Your task to perform on an android device: Search for vegetarian restaurants on Maps Image 0: 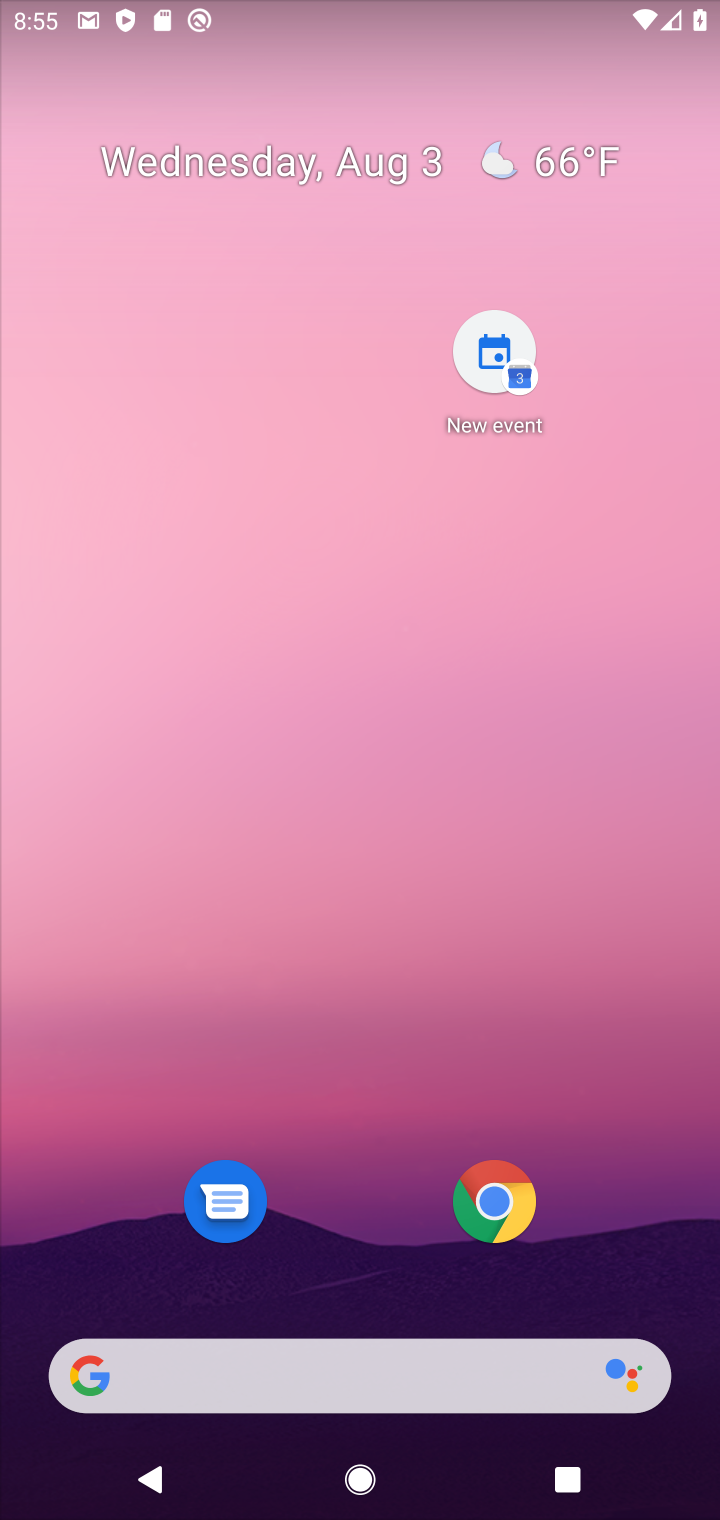
Step 0: press back button
Your task to perform on an android device: Search for vegetarian restaurants on Maps Image 1: 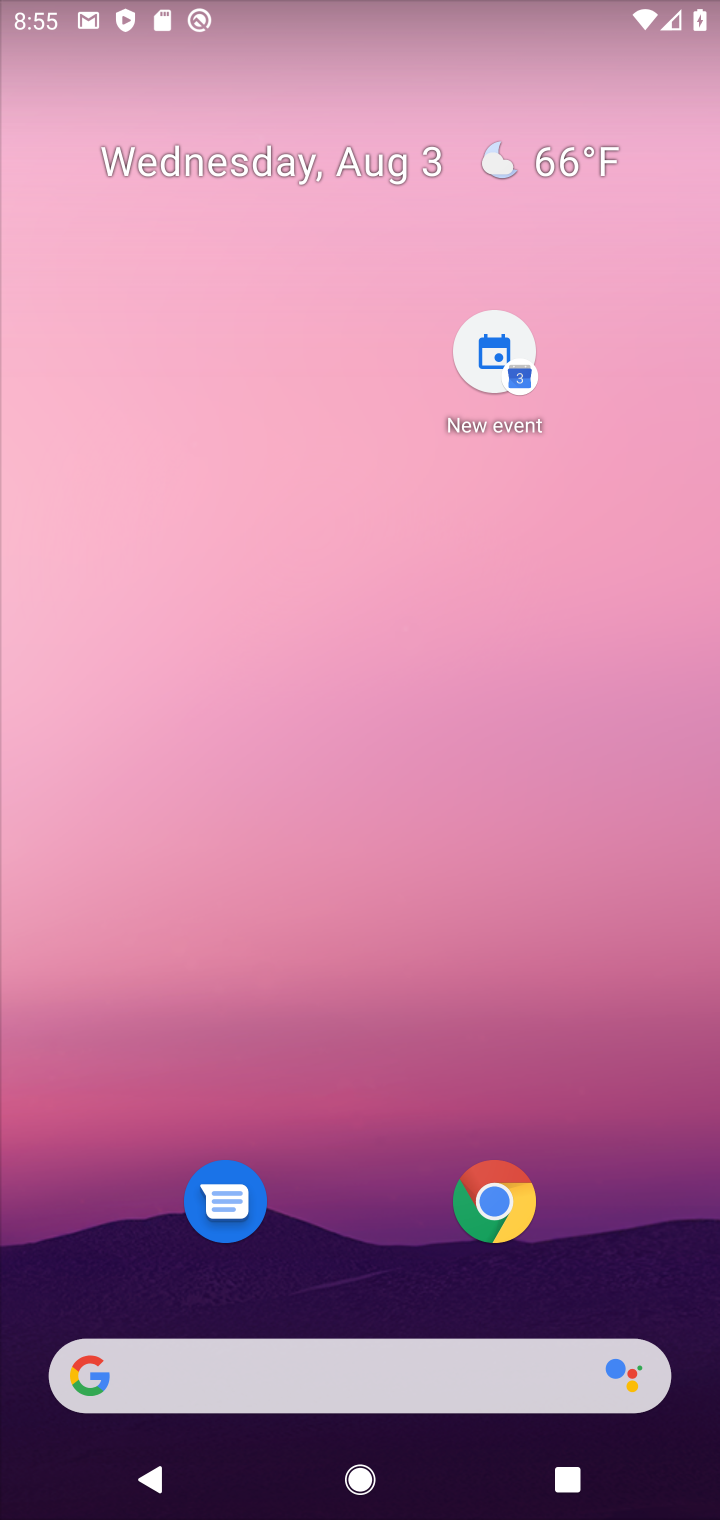
Step 1: drag from (242, 444) to (313, 165)
Your task to perform on an android device: Search for vegetarian restaurants on Maps Image 2: 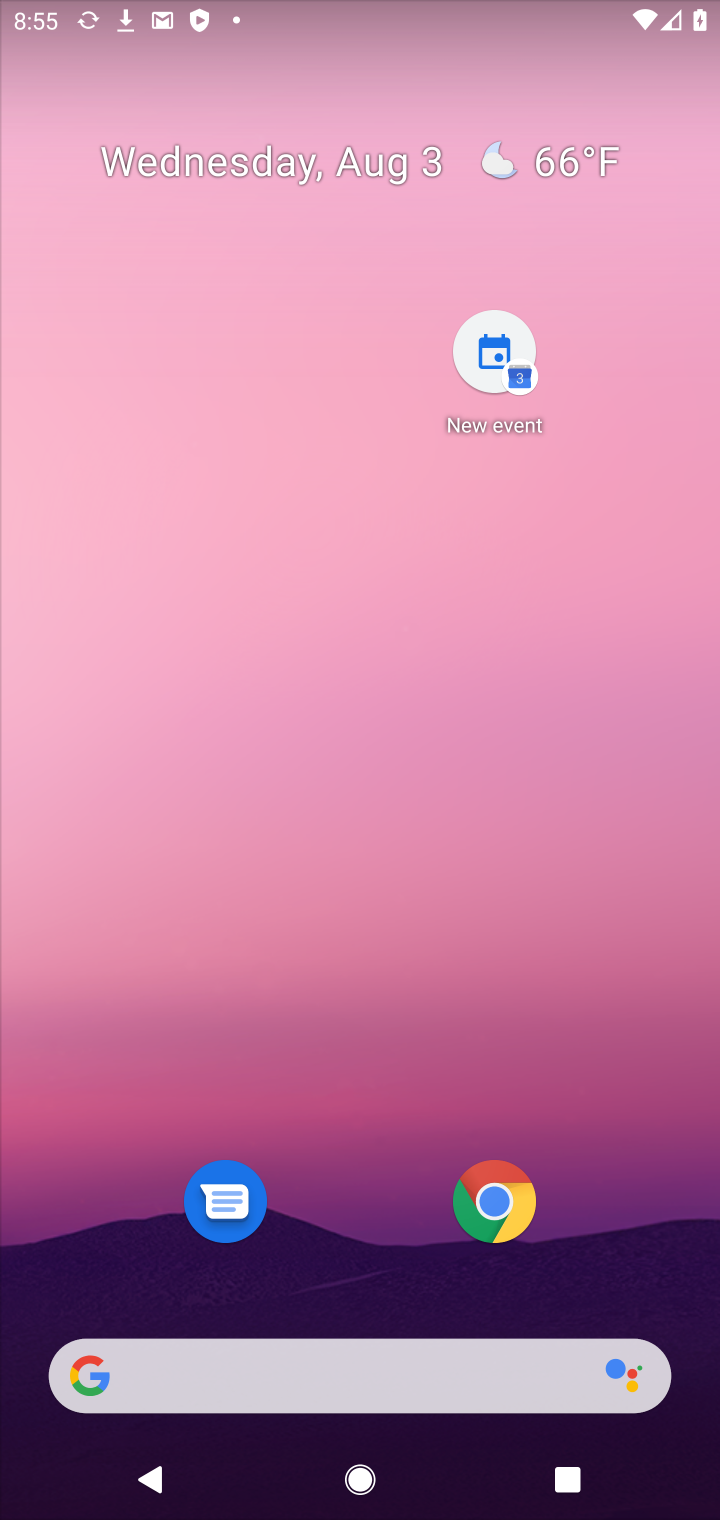
Step 2: press back button
Your task to perform on an android device: Search for vegetarian restaurants on Maps Image 3: 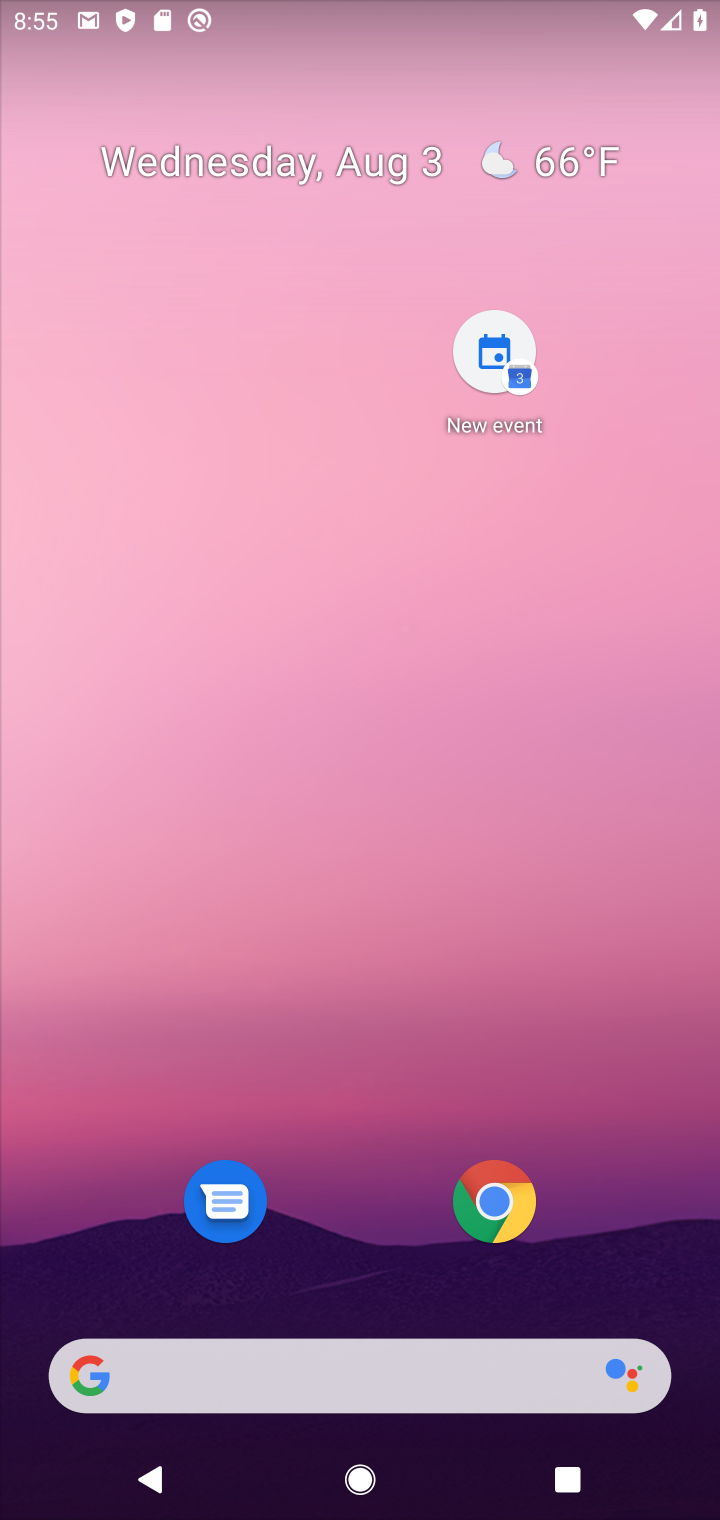
Step 3: press back button
Your task to perform on an android device: Search for vegetarian restaurants on Maps Image 4: 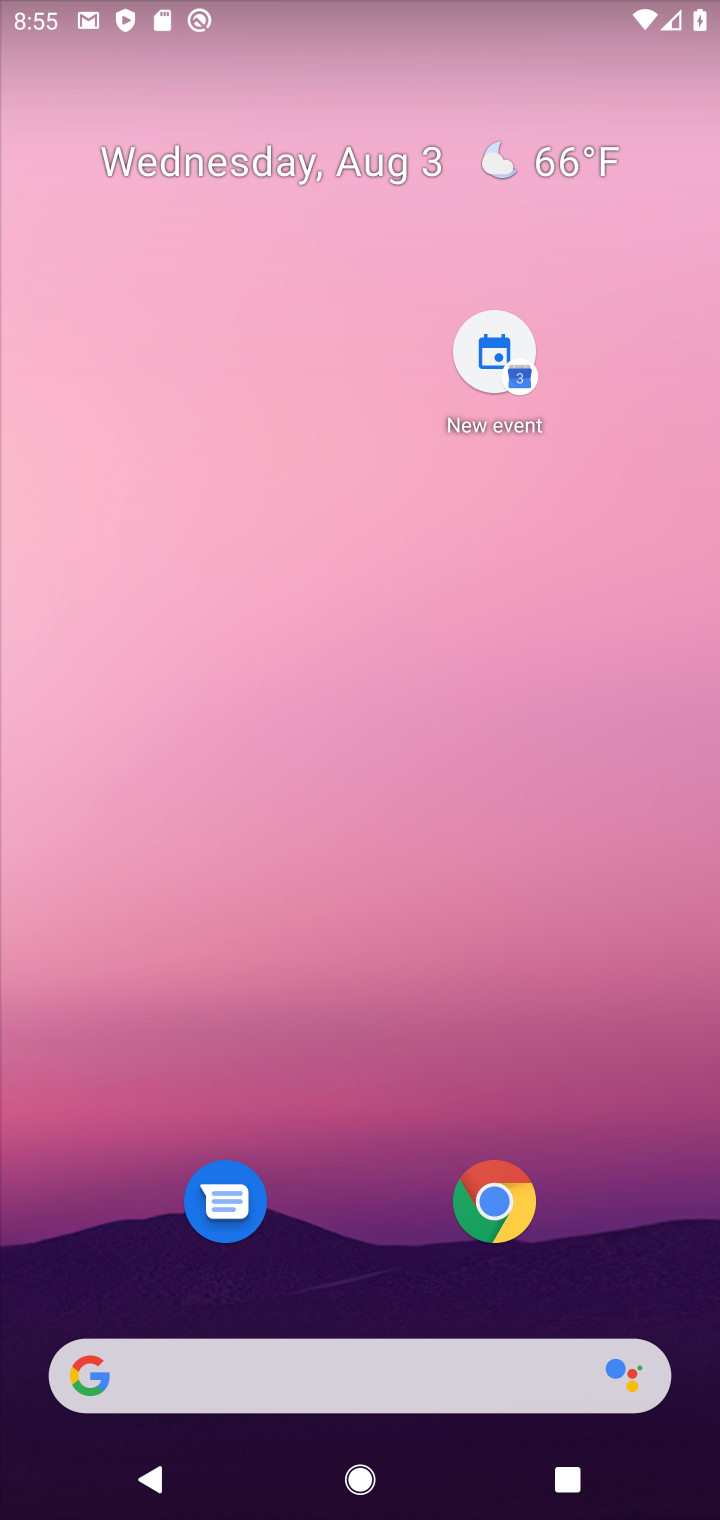
Step 4: drag from (394, 1092) to (268, 434)
Your task to perform on an android device: Search for vegetarian restaurants on Maps Image 5: 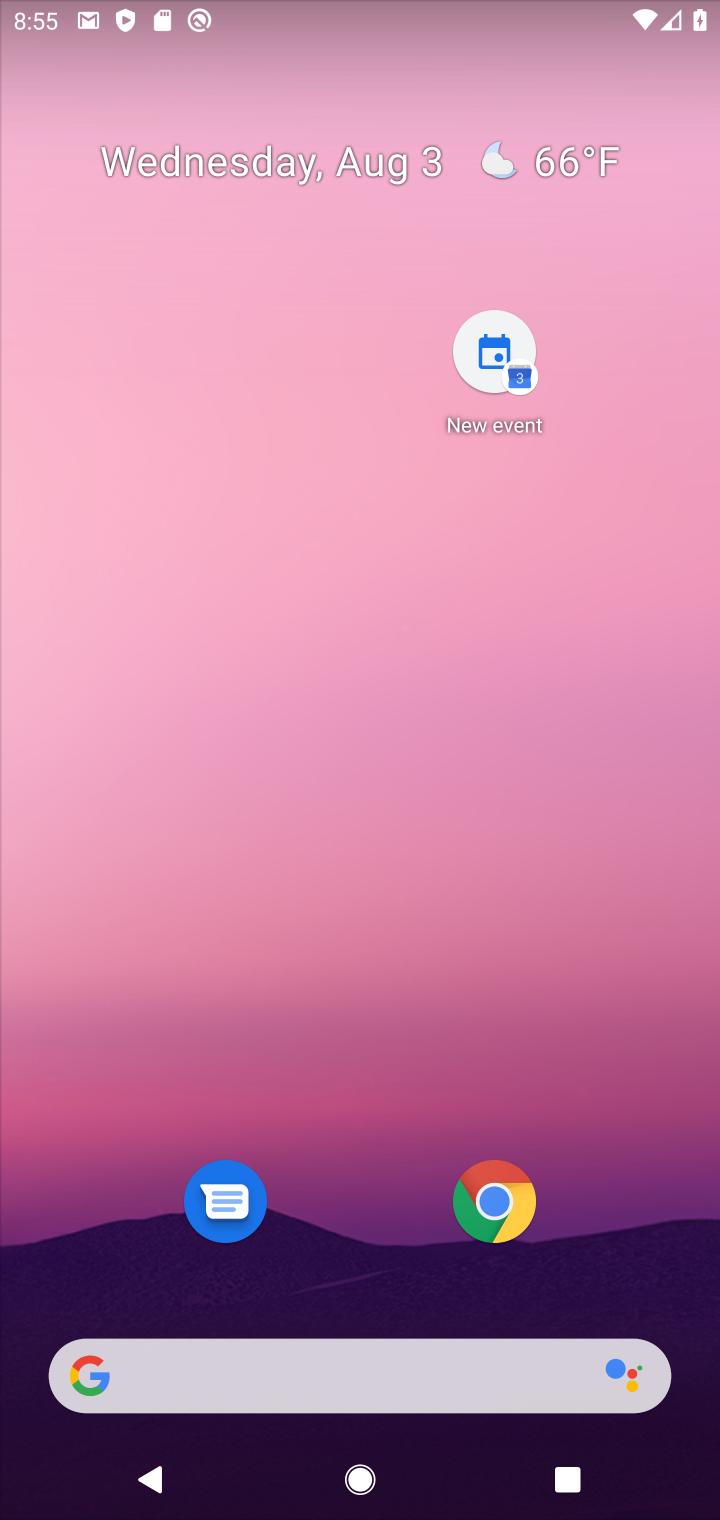
Step 5: click (480, 519)
Your task to perform on an android device: Search for vegetarian restaurants on Maps Image 6: 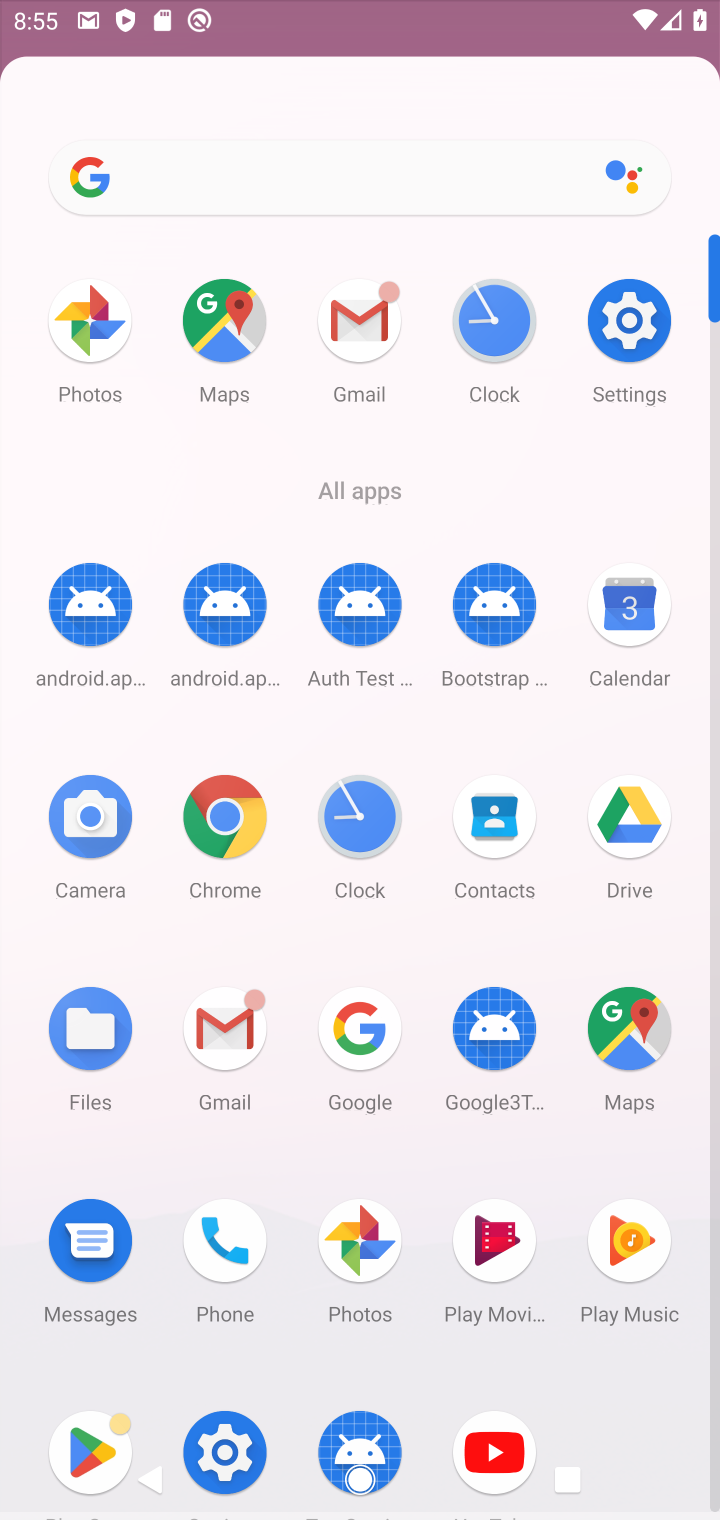
Step 6: drag from (453, 1141) to (487, 808)
Your task to perform on an android device: Search for vegetarian restaurants on Maps Image 7: 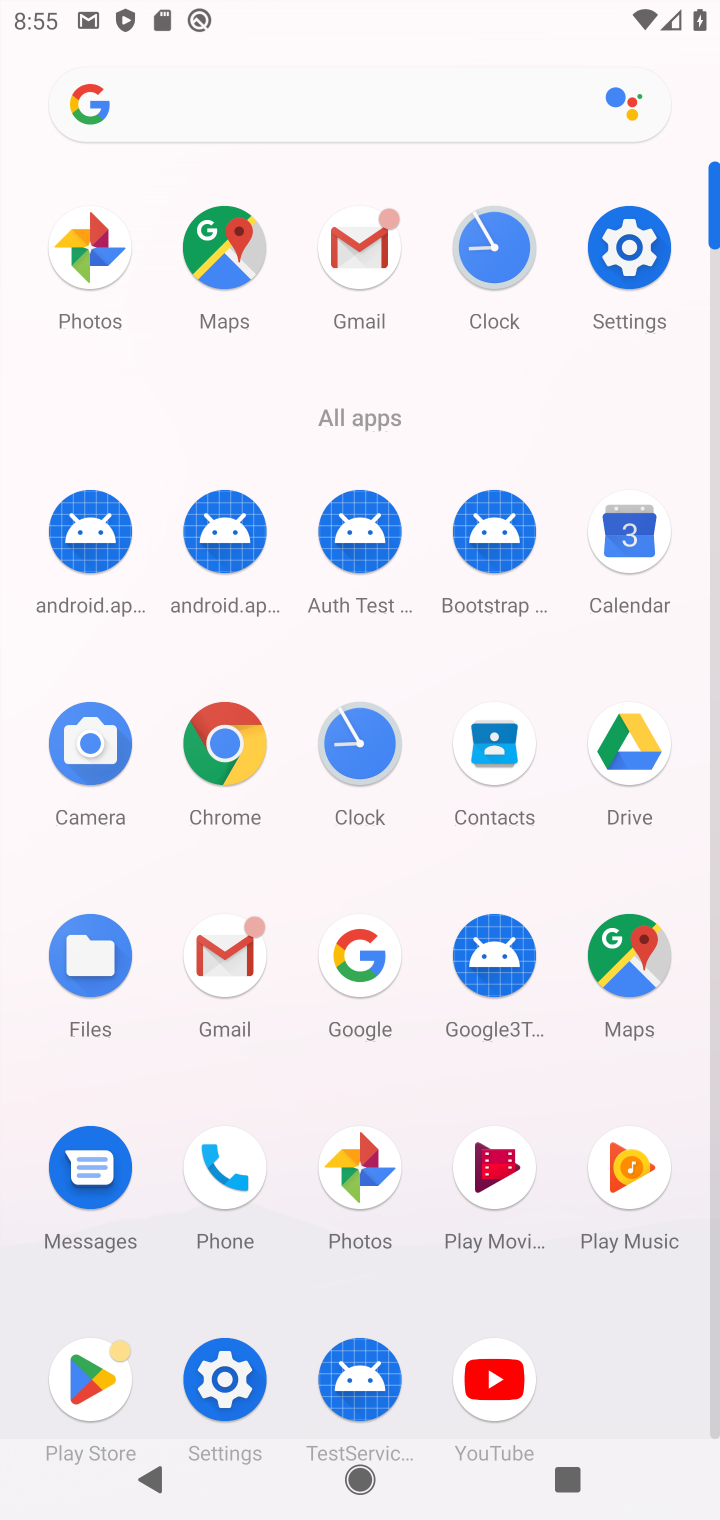
Step 7: click (629, 948)
Your task to perform on an android device: Search for vegetarian restaurants on Maps Image 8: 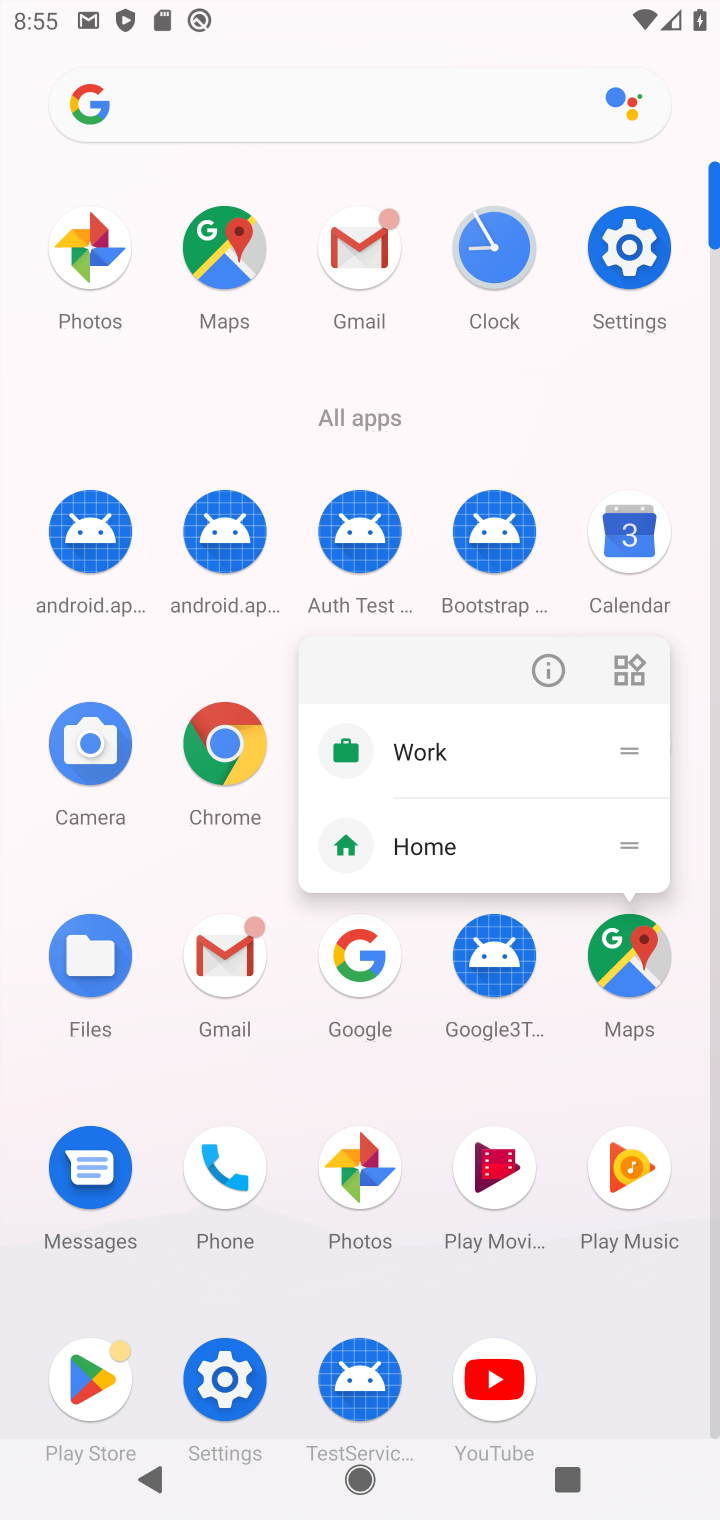
Step 8: click (630, 946)
Your task to perform on an android device: Search for vegetarian restaurants on Maps Image 9: 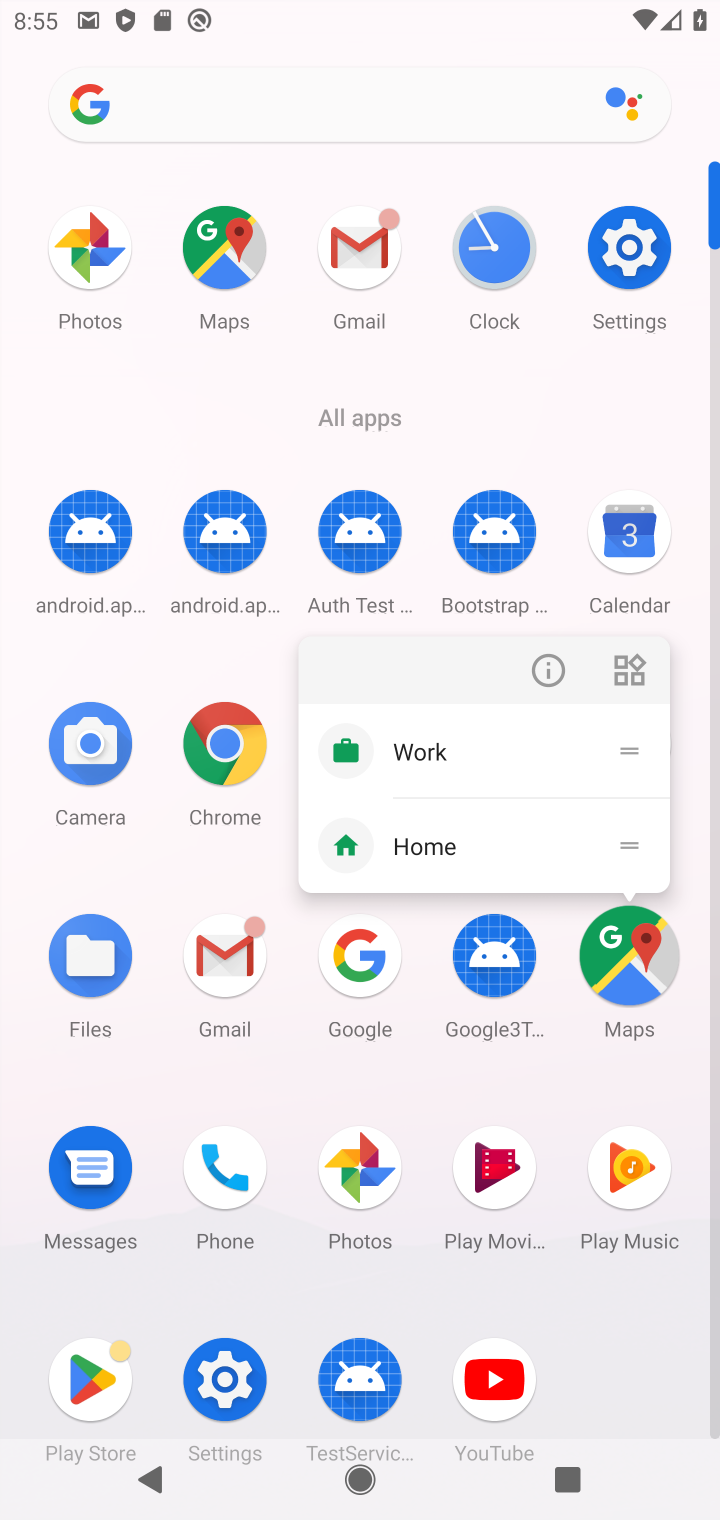
Step 9: click (630, 946)
Your task to perform on an android device: Search for vegetarian restaurants on Maps Image 10: 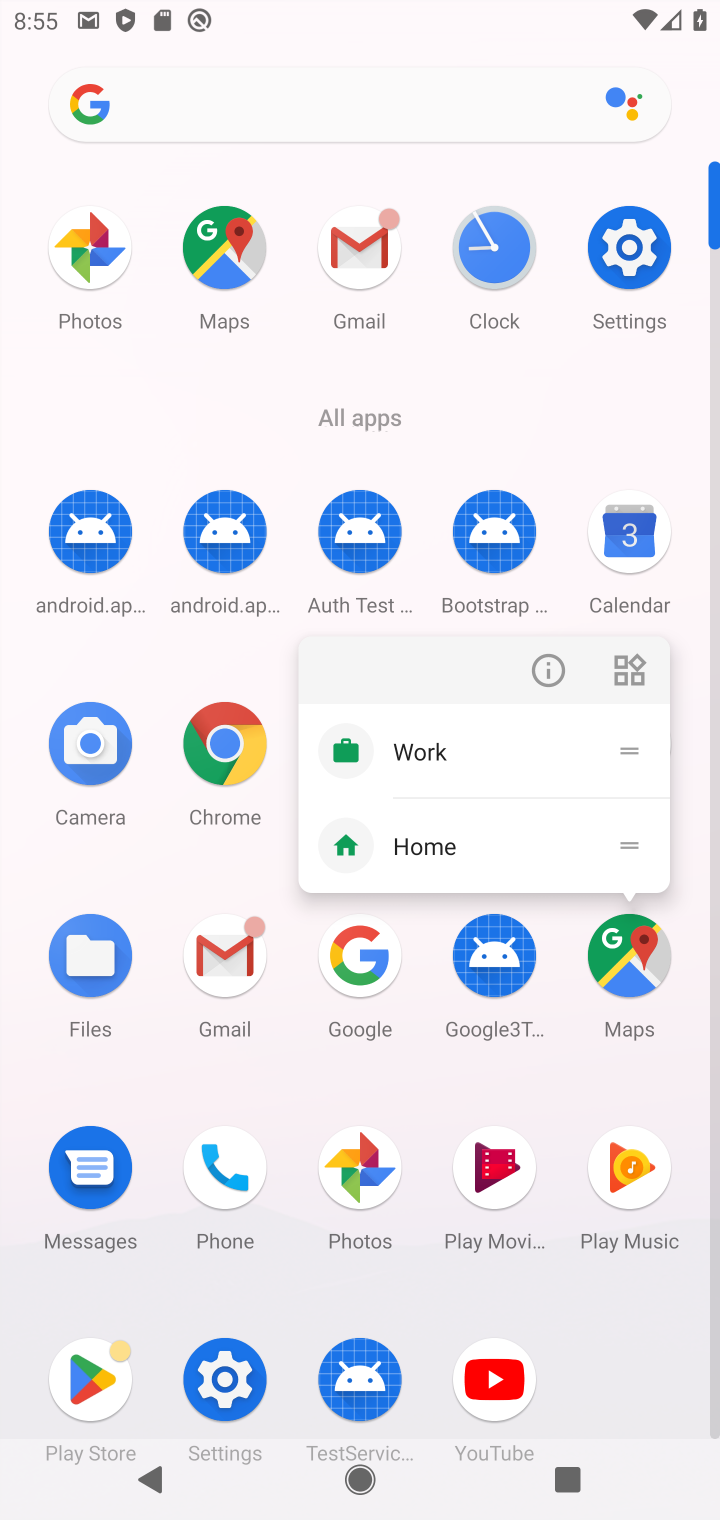
Step 10: click (633, 946)
Your task to perform on an android device: Search for vegetarian restaurants on Maps Image 11: 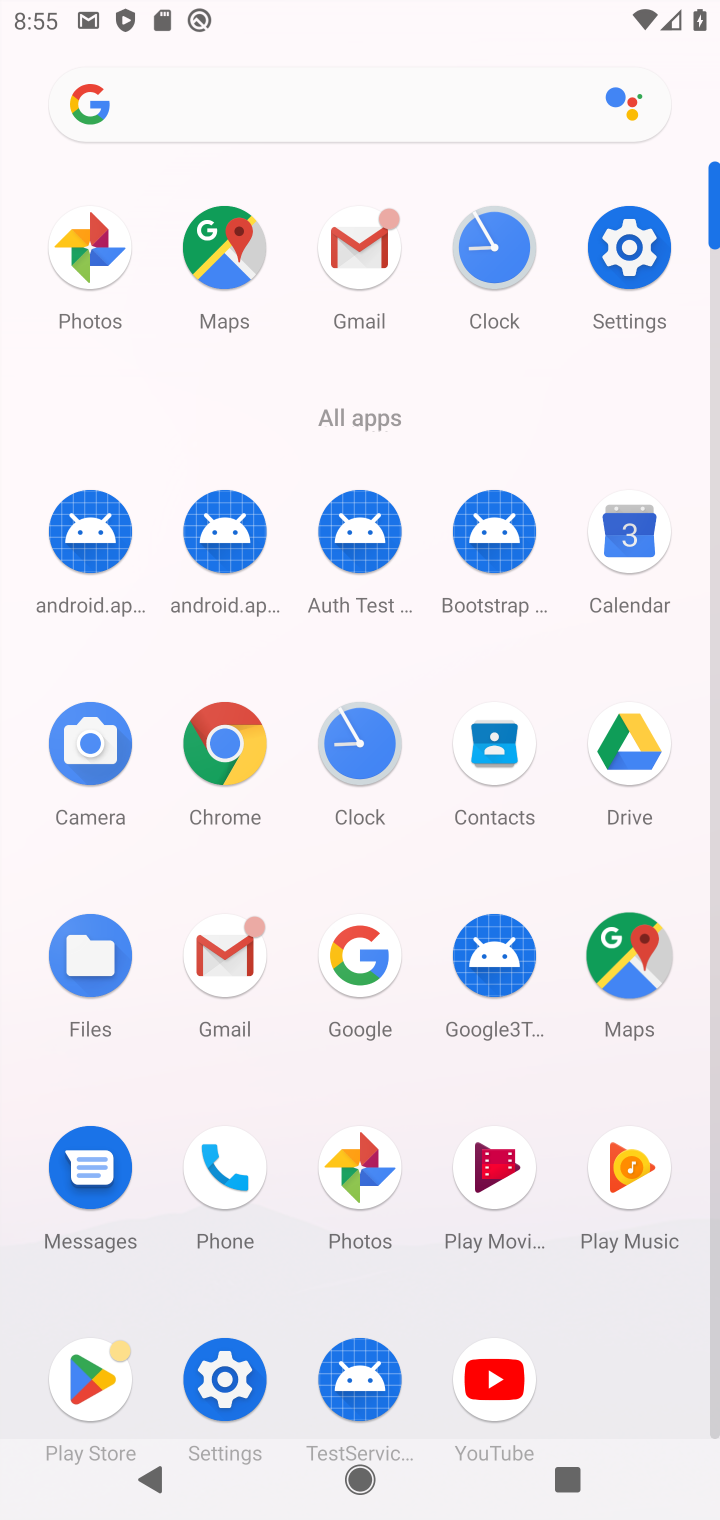
Step 11: click (636, 950)
Your task to perform on an android device: Search for vegetarian restaurants on Maps Image 12: 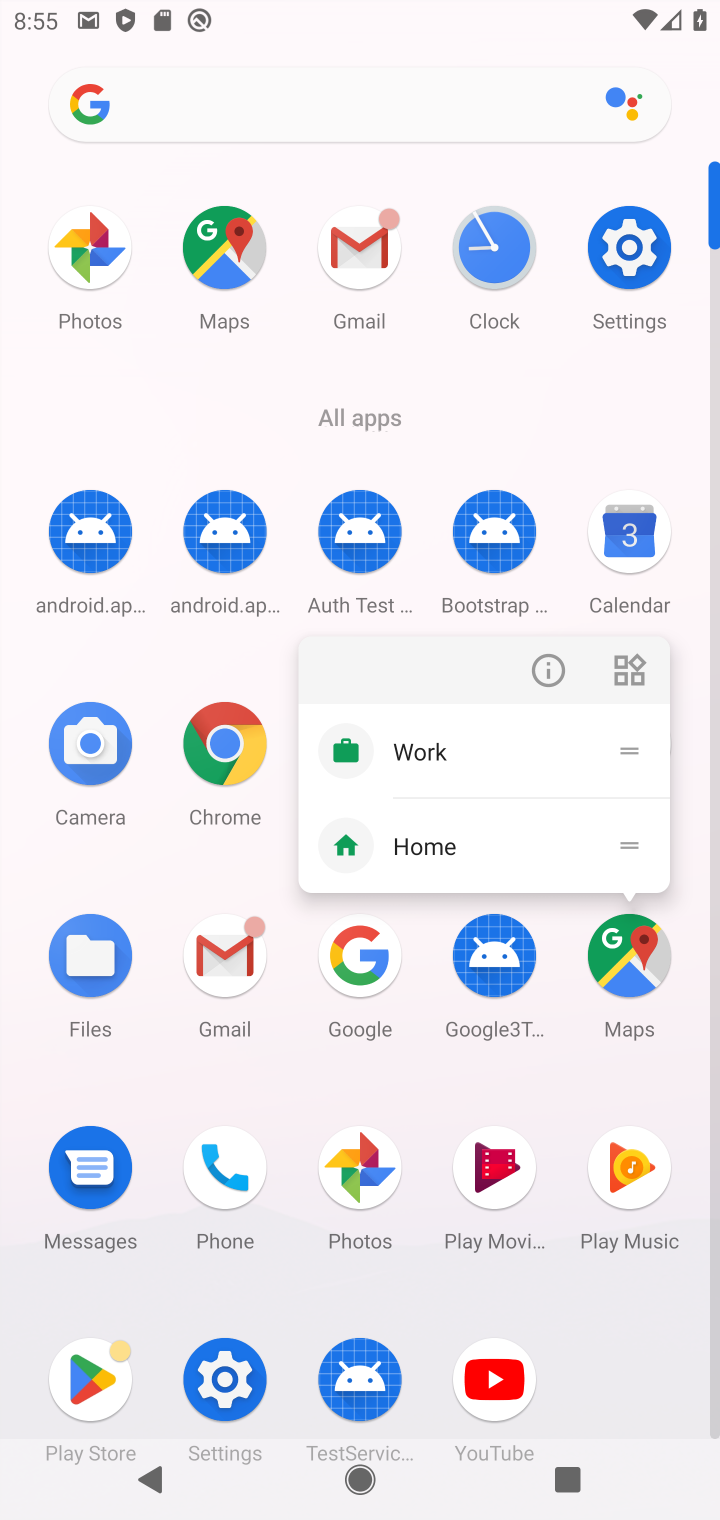
Step 12: click (638, 918)
Your task to perform on an android device: Search for vegetarian restaurants on Maps Image 13: 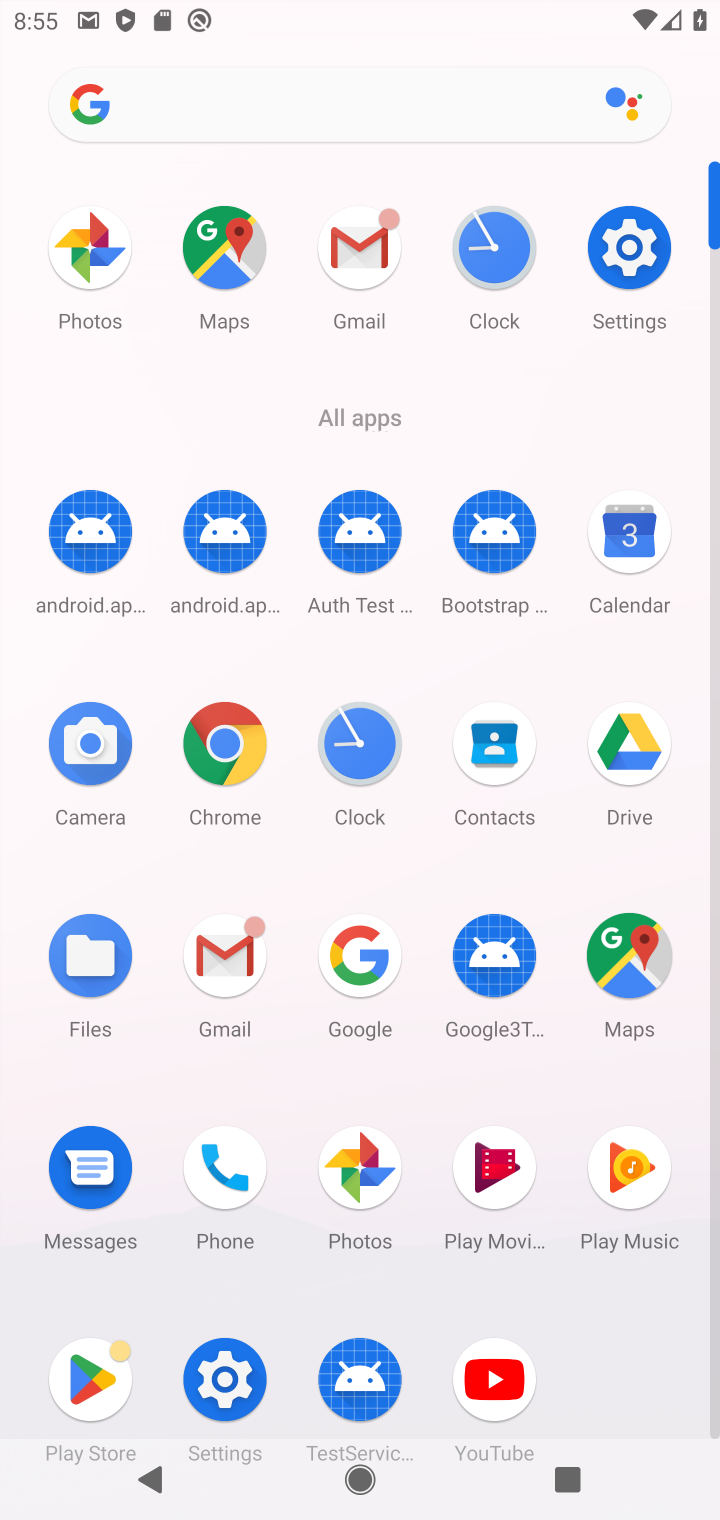
Step 13: click (636, 909)
Your task to perform on an android device: Search for vegetarian restaurants on Maps Image 14: 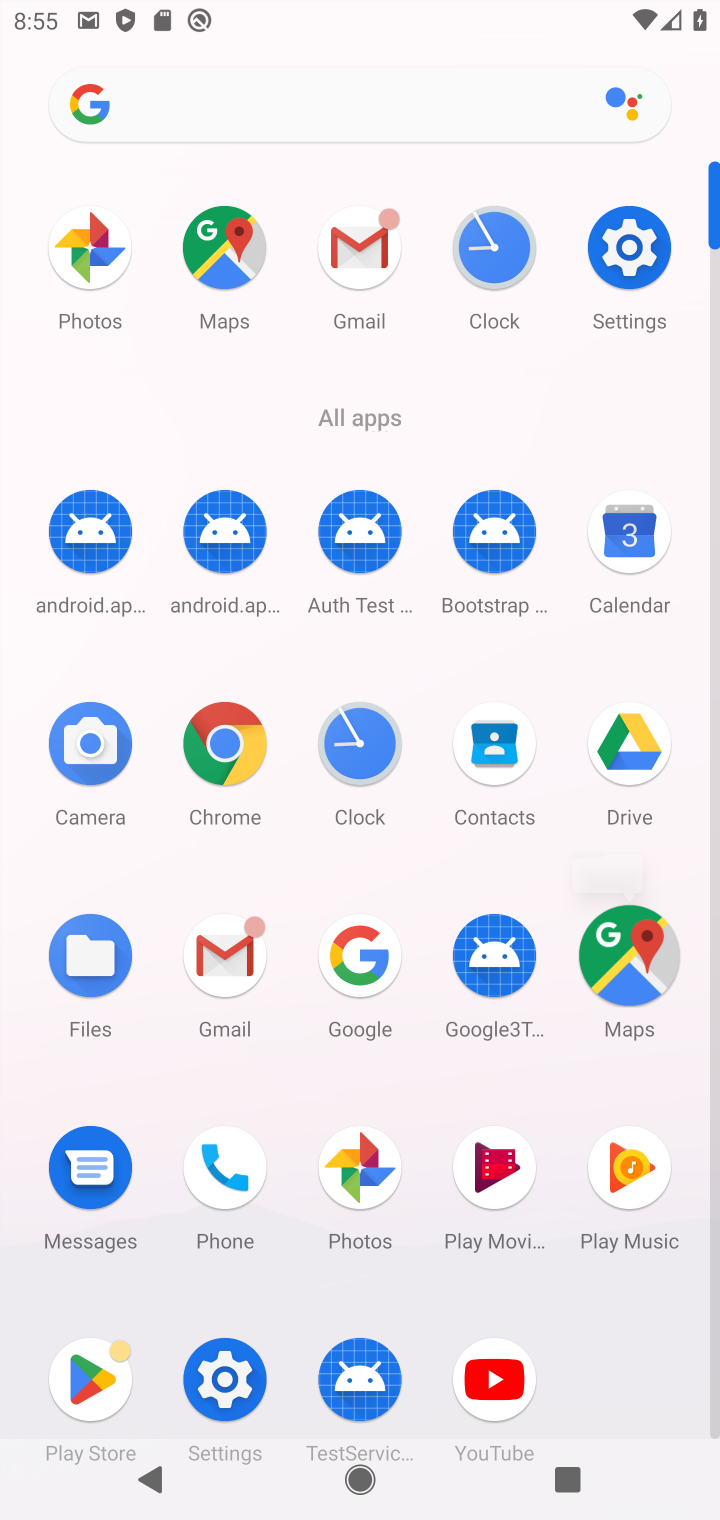
Step 14: click (638, 938)
Your task to perform on an android device: Search for vegetarian restaurants on Maps Image 15: 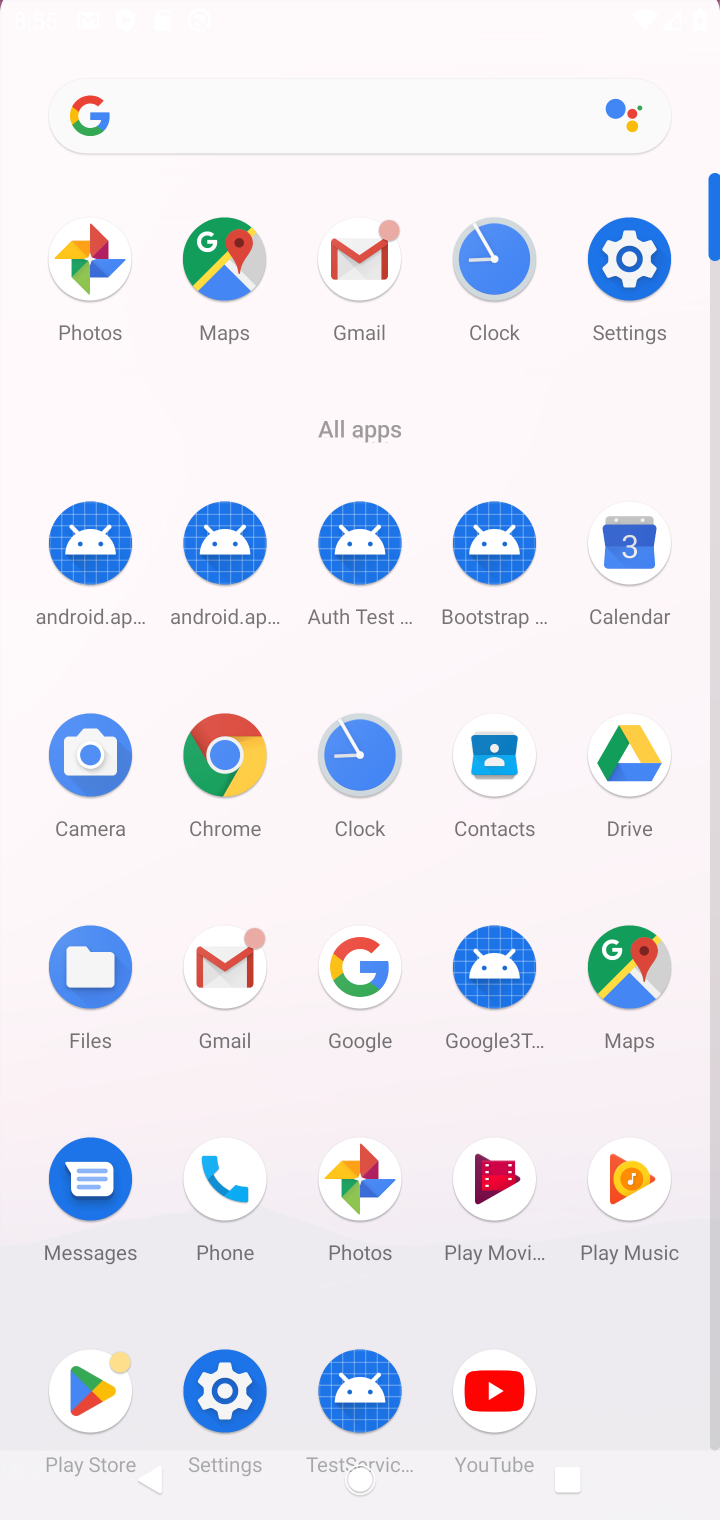
Step 15: click (624, 970)
Your task to perform on an android device: Search for vegetarian restaurants on Maps Image 16: 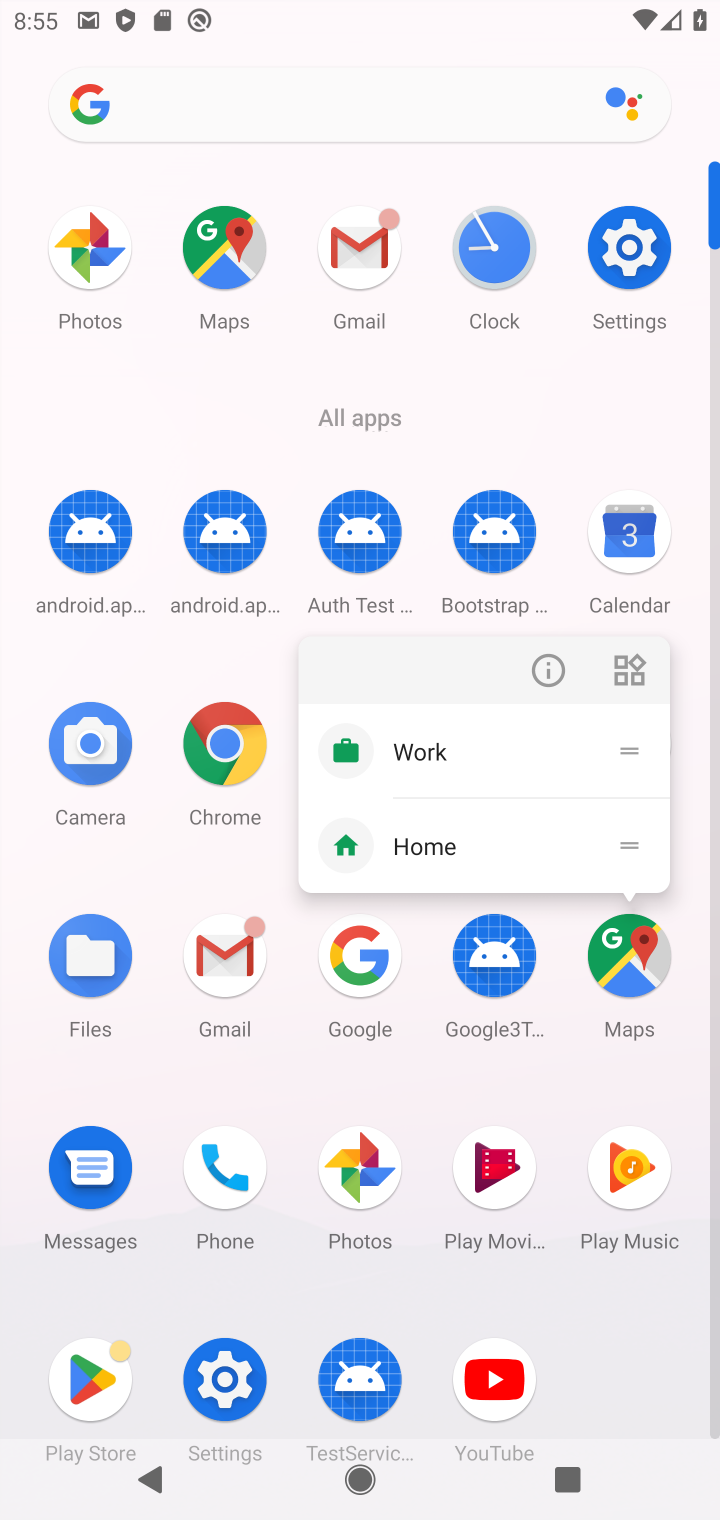
Step 16: click (624, 959)
Your task to perform on an android device: Search for vegetarian restaurants on Maps Image 17: 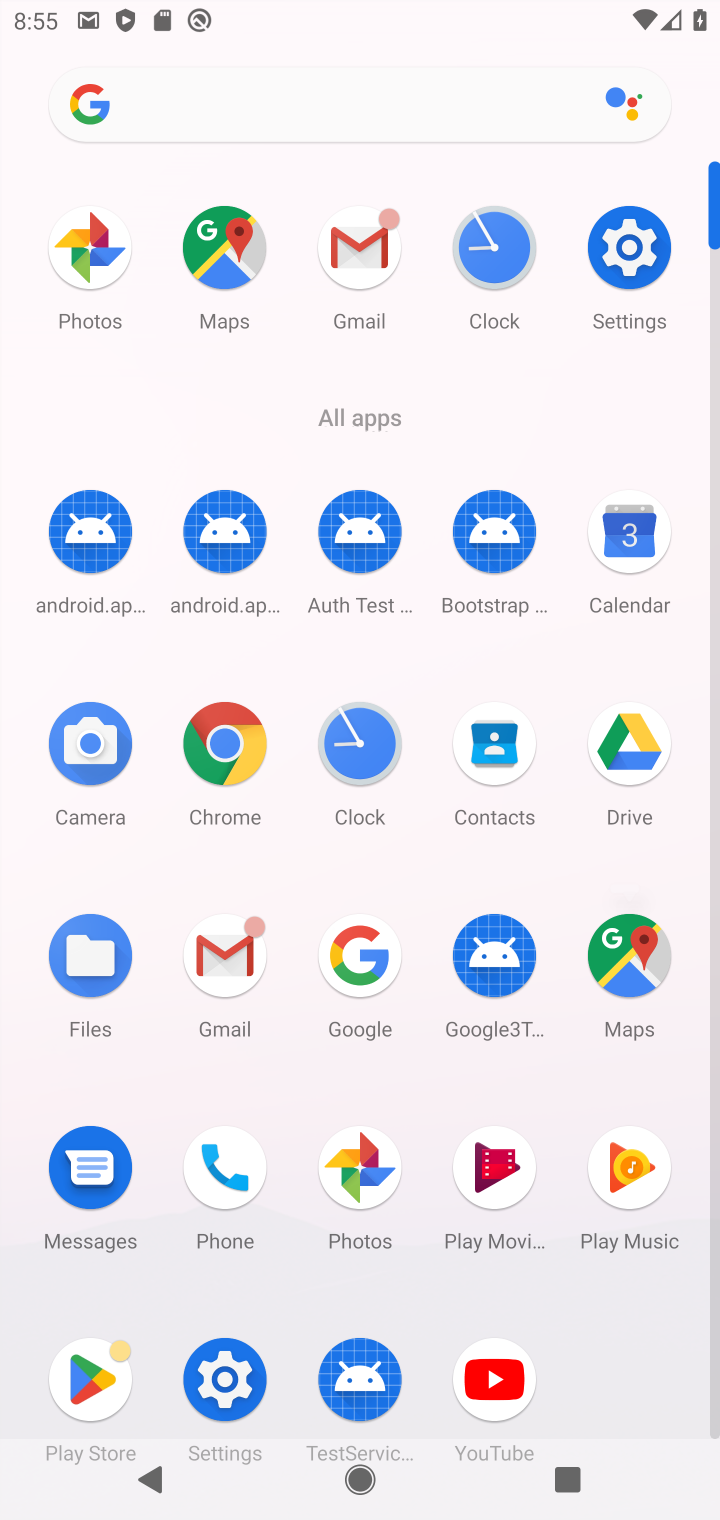
Step 17: click (624, 959)
Your task to perform on an android device: Search for vegetarian restaurants on Maps Image 18: 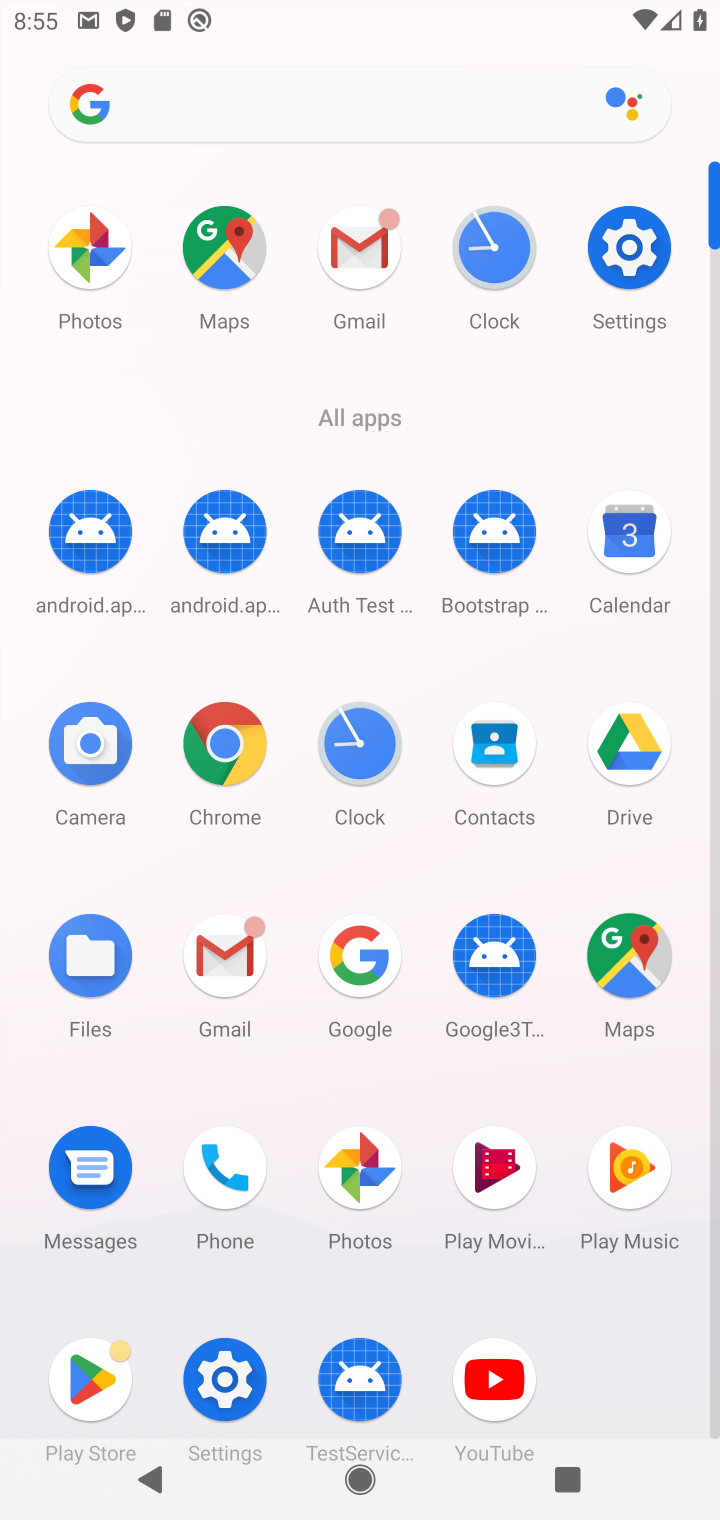
Step 18: click (439, 766)
Your task to perform on an android device: Search for vegetarian restaurants on Maps Image 19: 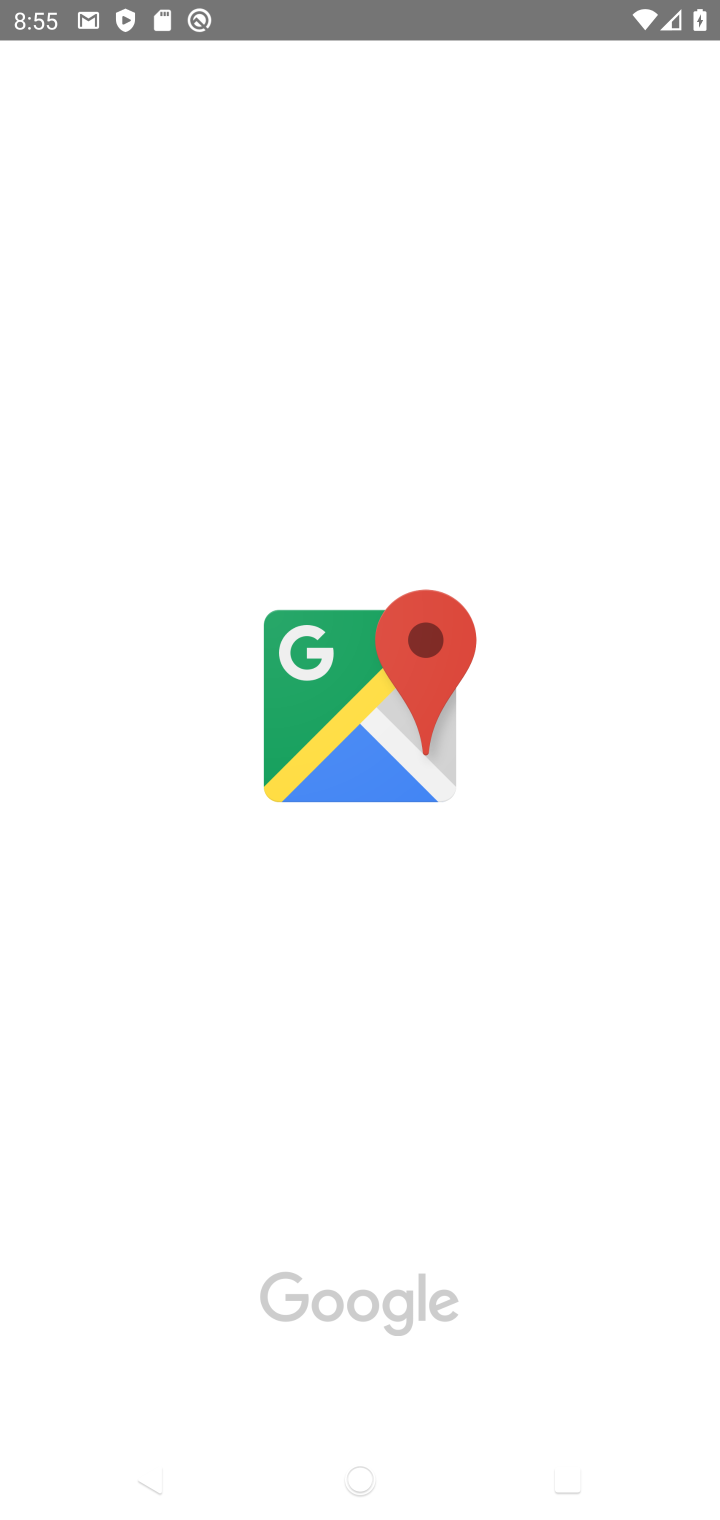
Step 19: click (446, 750)
Your task to perform on an android device: Search for vegetarian restaurants on Maps Image 20: 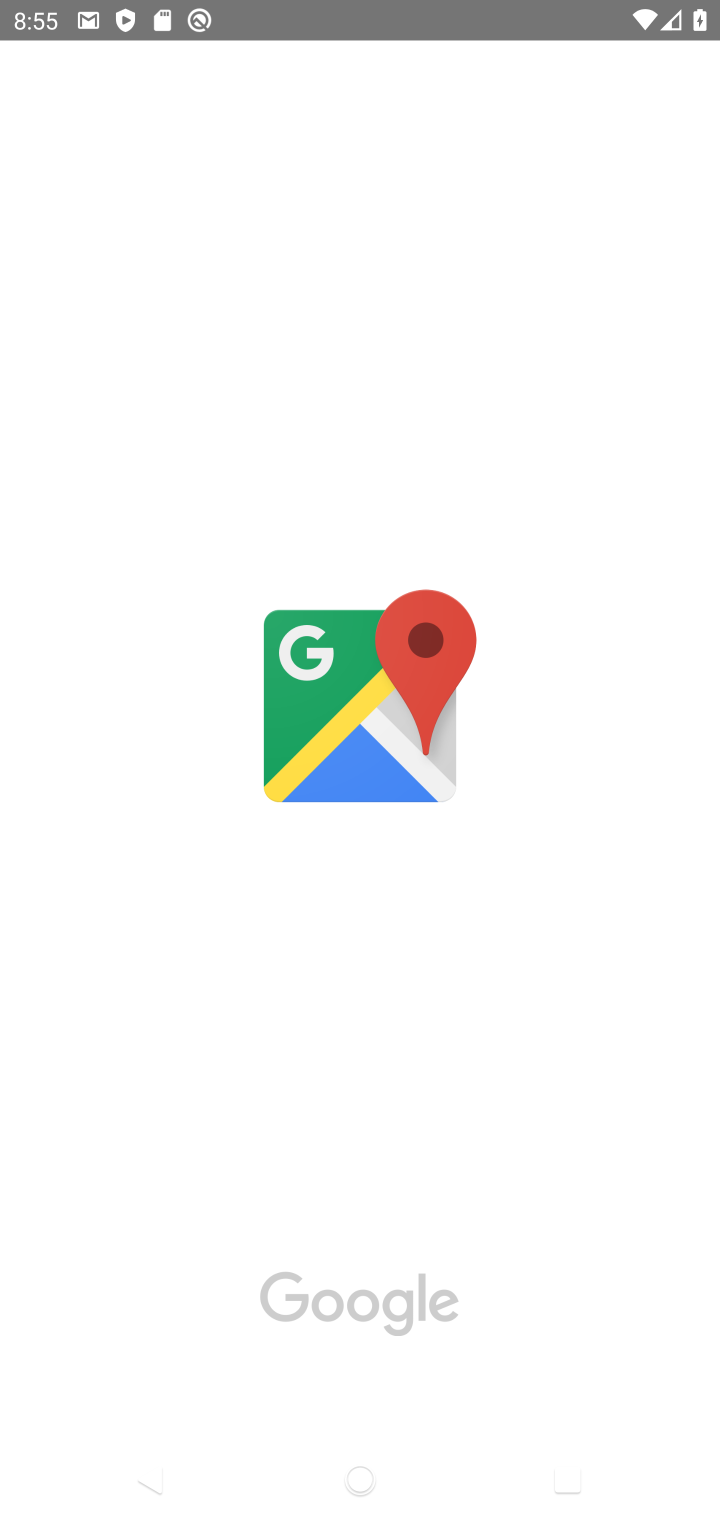
Step 20: click (412, 713)
Your task to perform on an android device: Search for vegetarian restaurants on Maps Image 21: 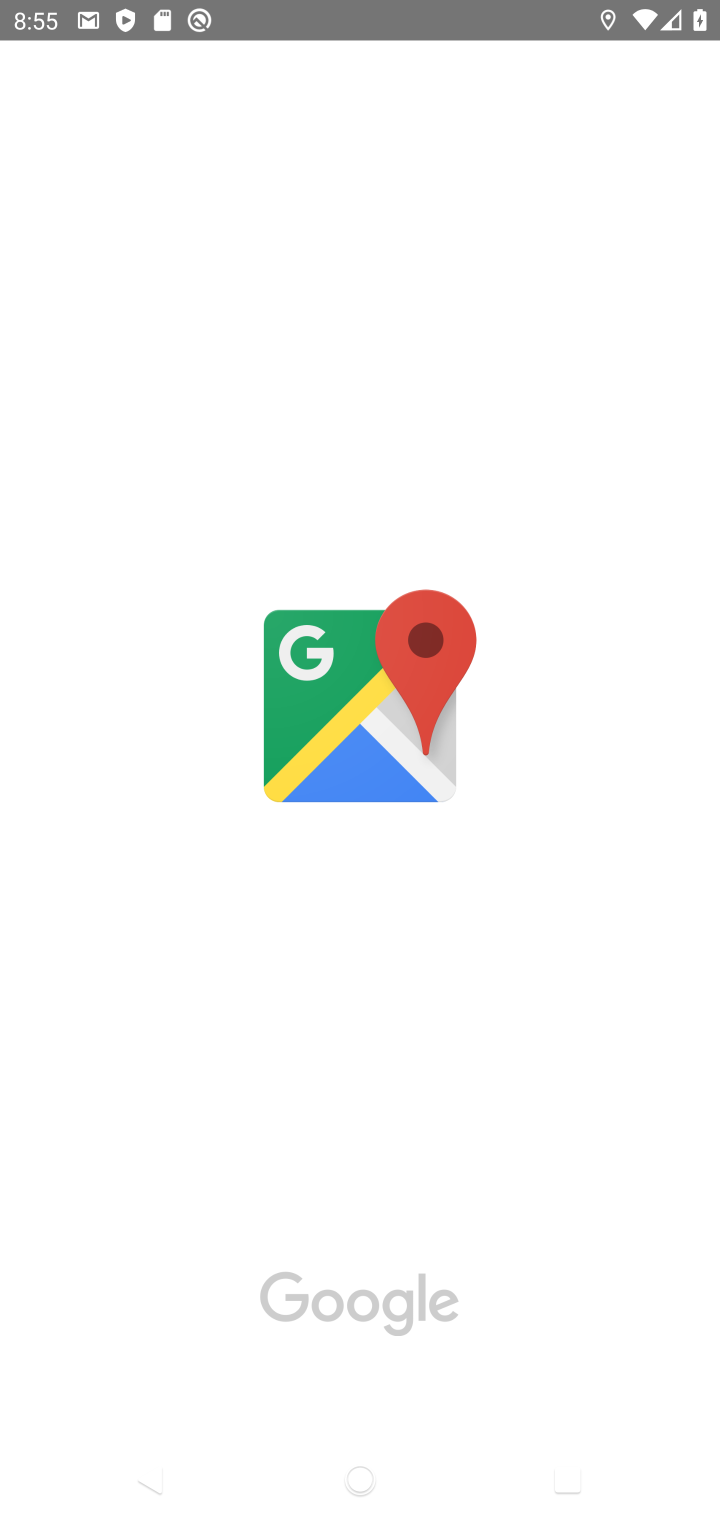
Step 21: click (316, 708)
Your task to perform on an android device: Search for vegetarian restaurants on Maps Image 22: 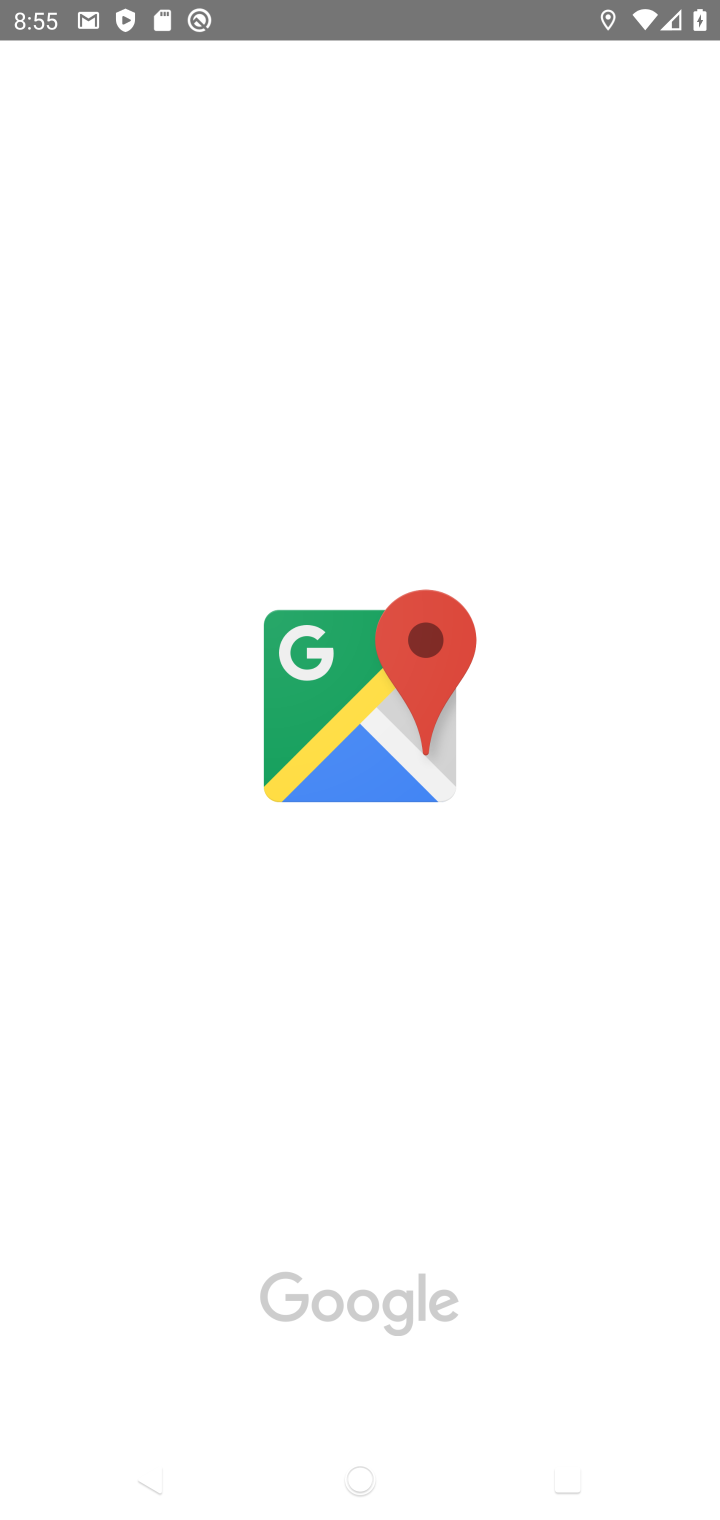
Step 22: click (342, 682)
Your task to perform on an android device: Search for vegetarian restaurants on Maps Image 23: 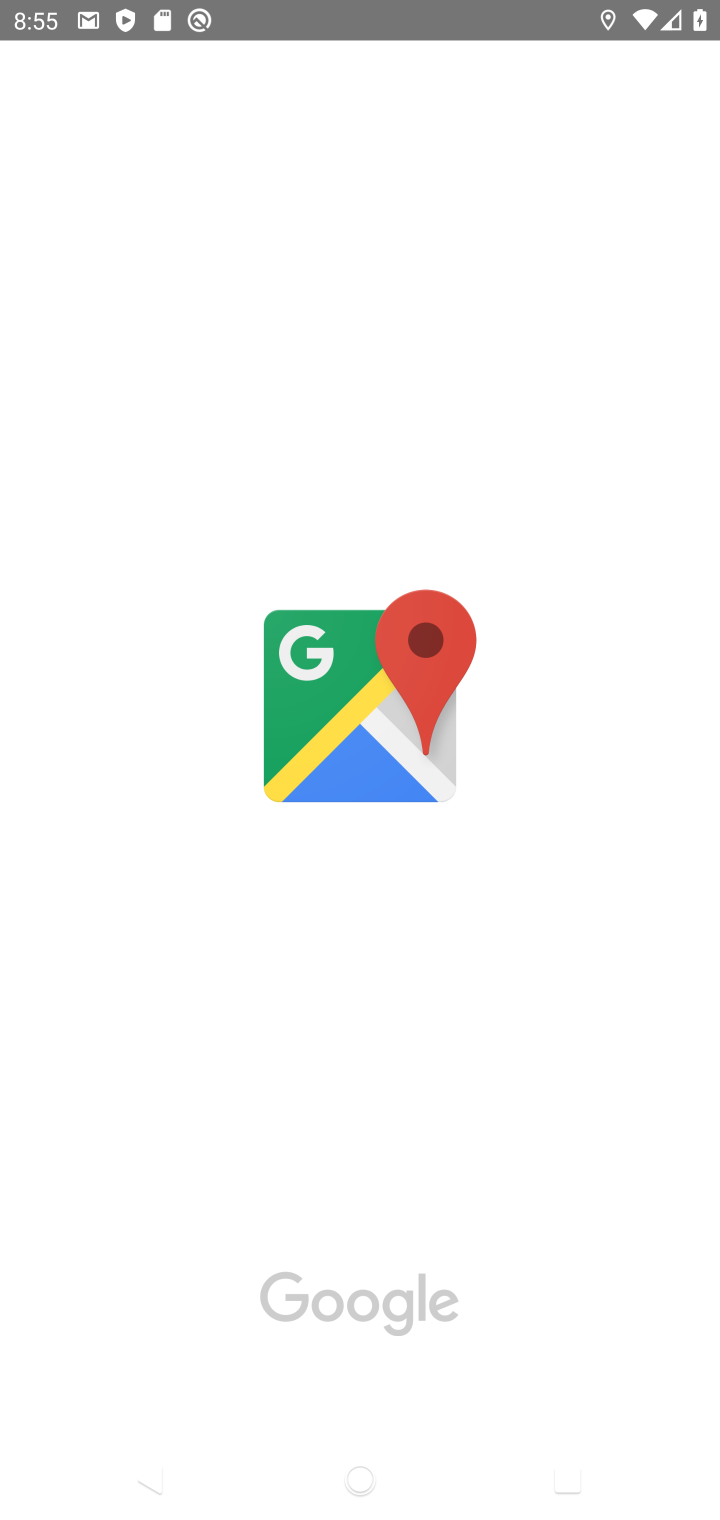
Step 23: click (464, 770)
Your task to perform on an android device: Search for vegetarian restaurants on Maps Image 24: 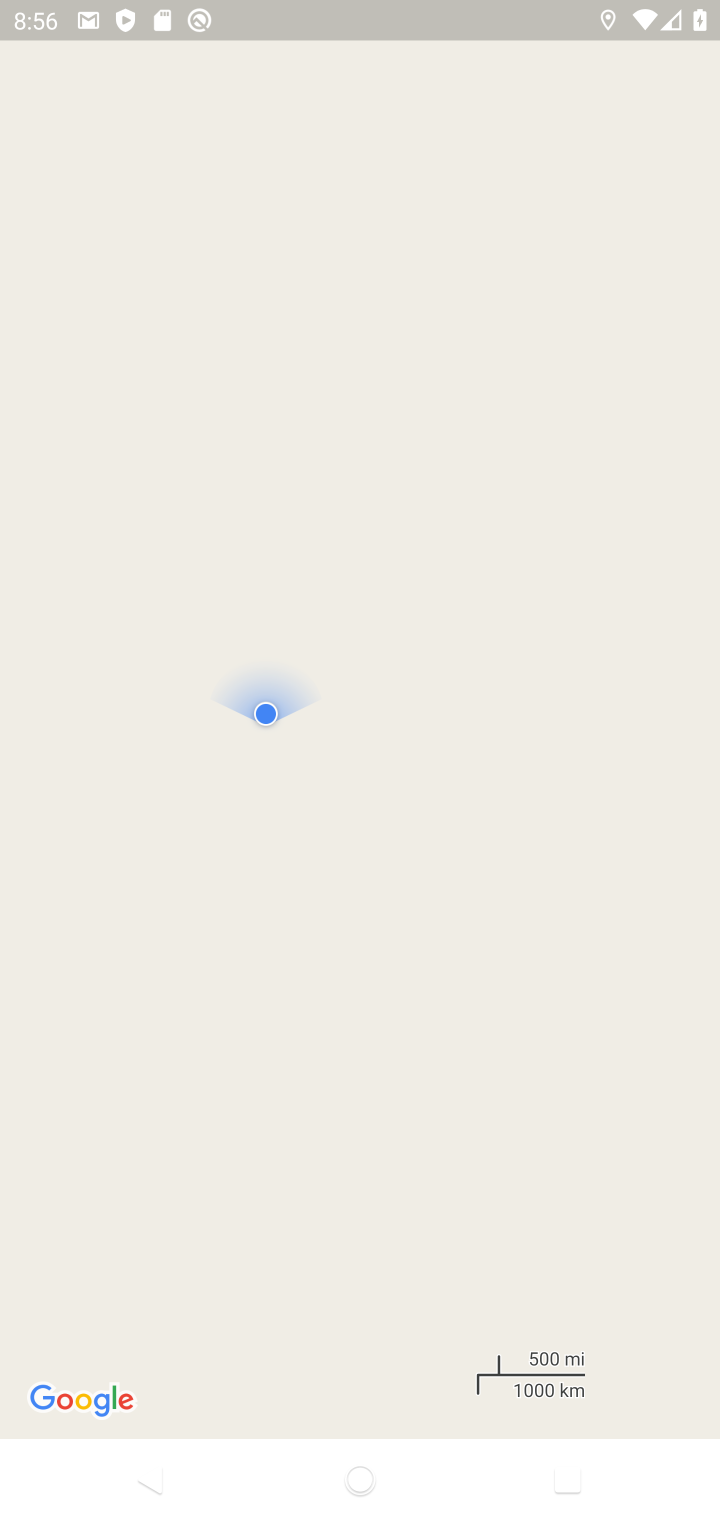
Step 24: click (258, 371)
Your task to perform on an android device: Search for vegetarian restaurants on Maps Image 25: 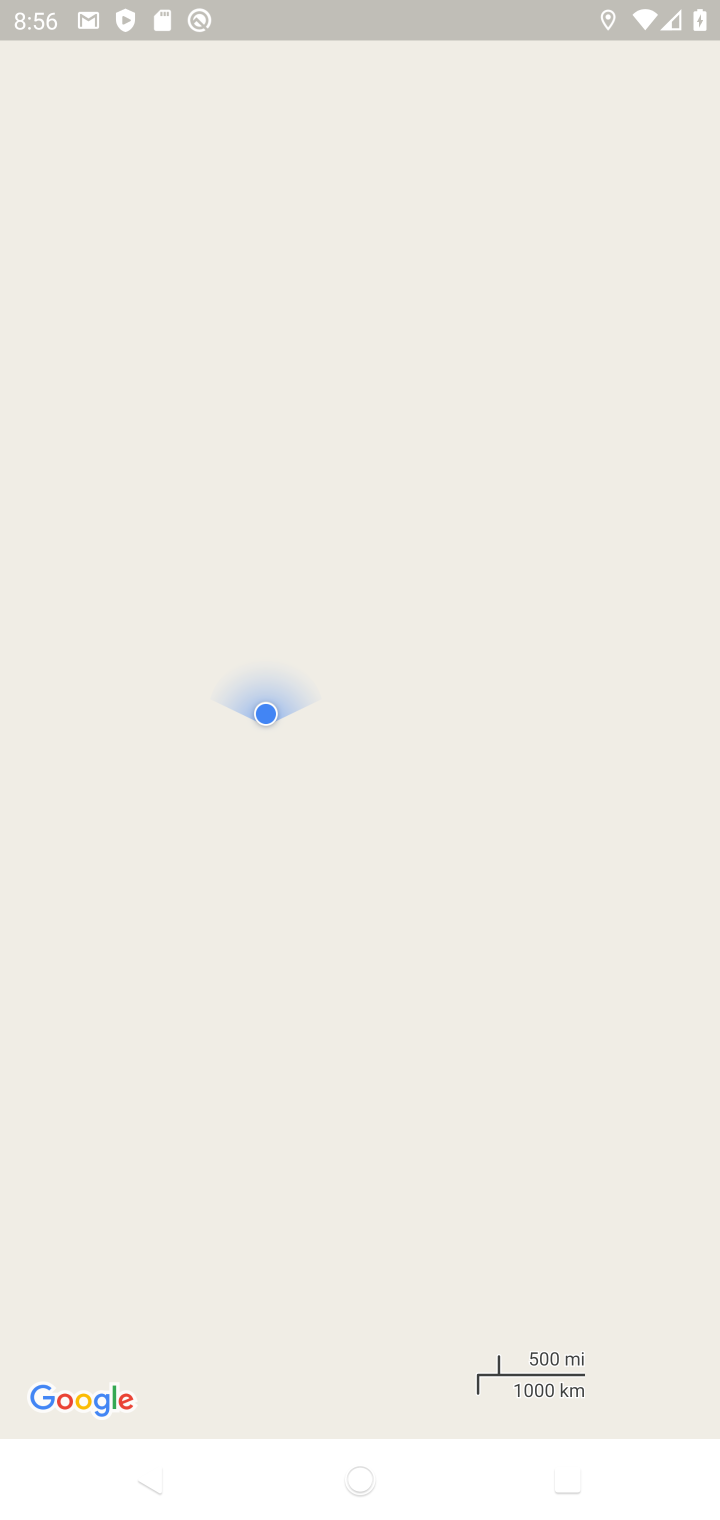
Step 25: click (263, 325)
Your task to perform on an android device: Search for vegetarian restaurants on Maps Image 26: 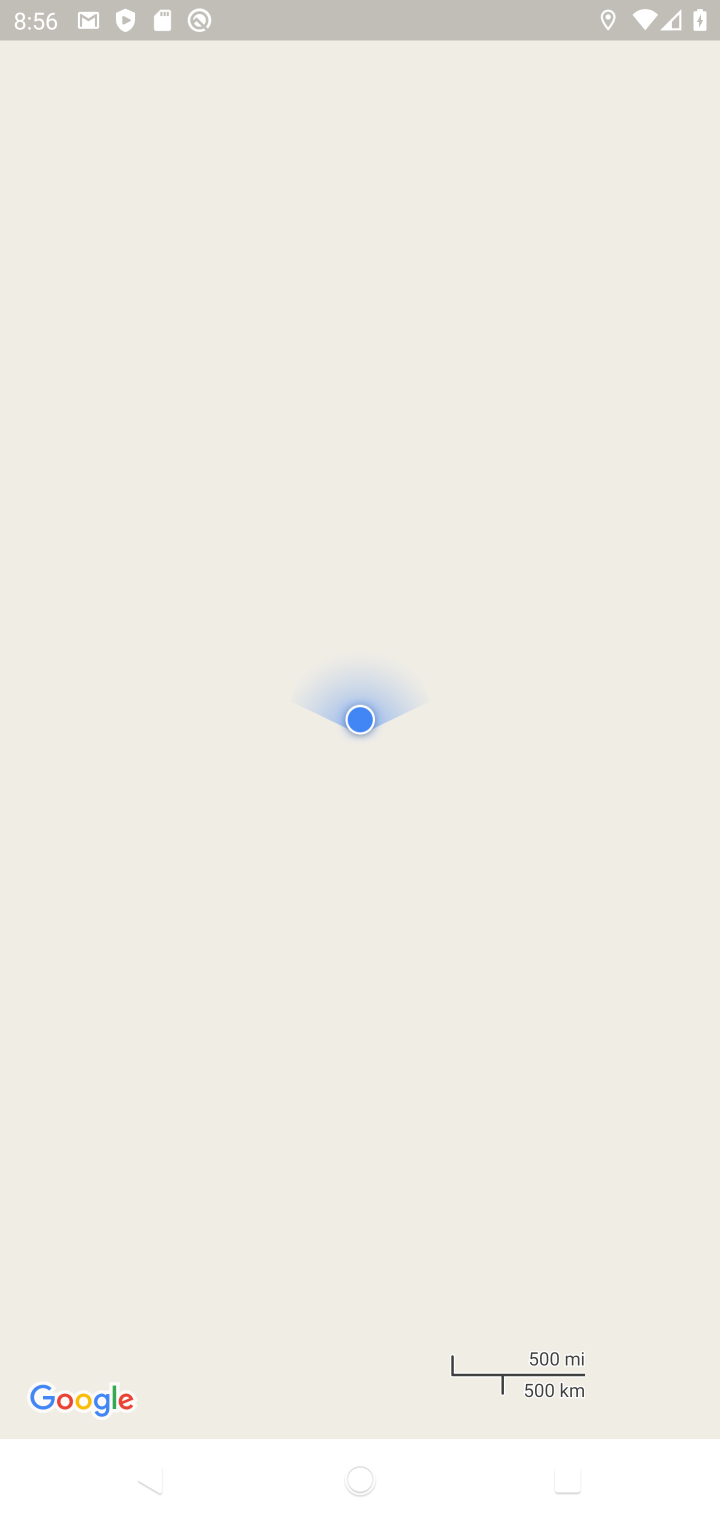
Step 26: click (269, 323)
Your task to perform on an android device: Search for vegetarian restaurants on Maps Image 27: 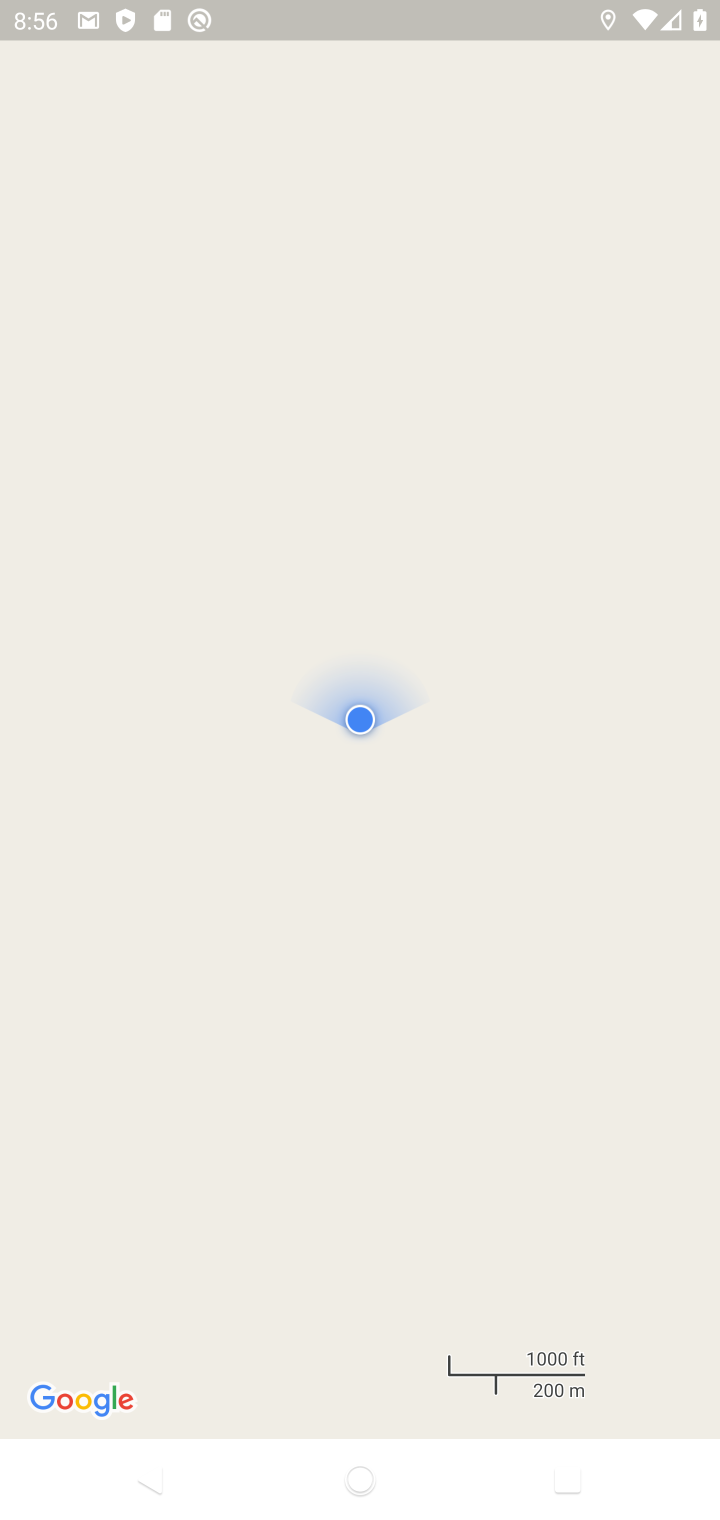
Step 27: click (265, 260)
Your task to perform on an android device: Search for vegetarian restaurants on Maps Image 28: 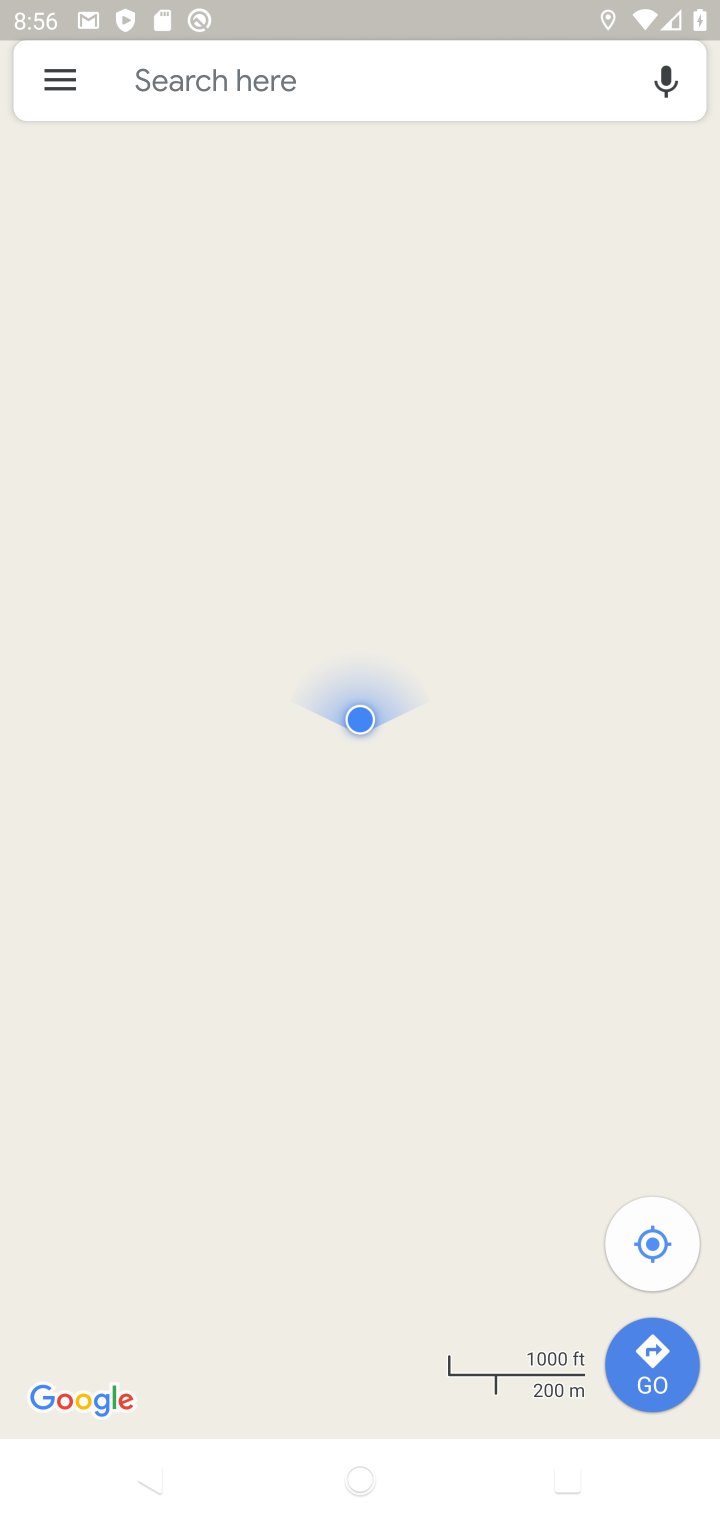
Step 28: click (213, 217)
Your task to perform on an android device: Search for vegetarian restaurants on Maps Image 29: 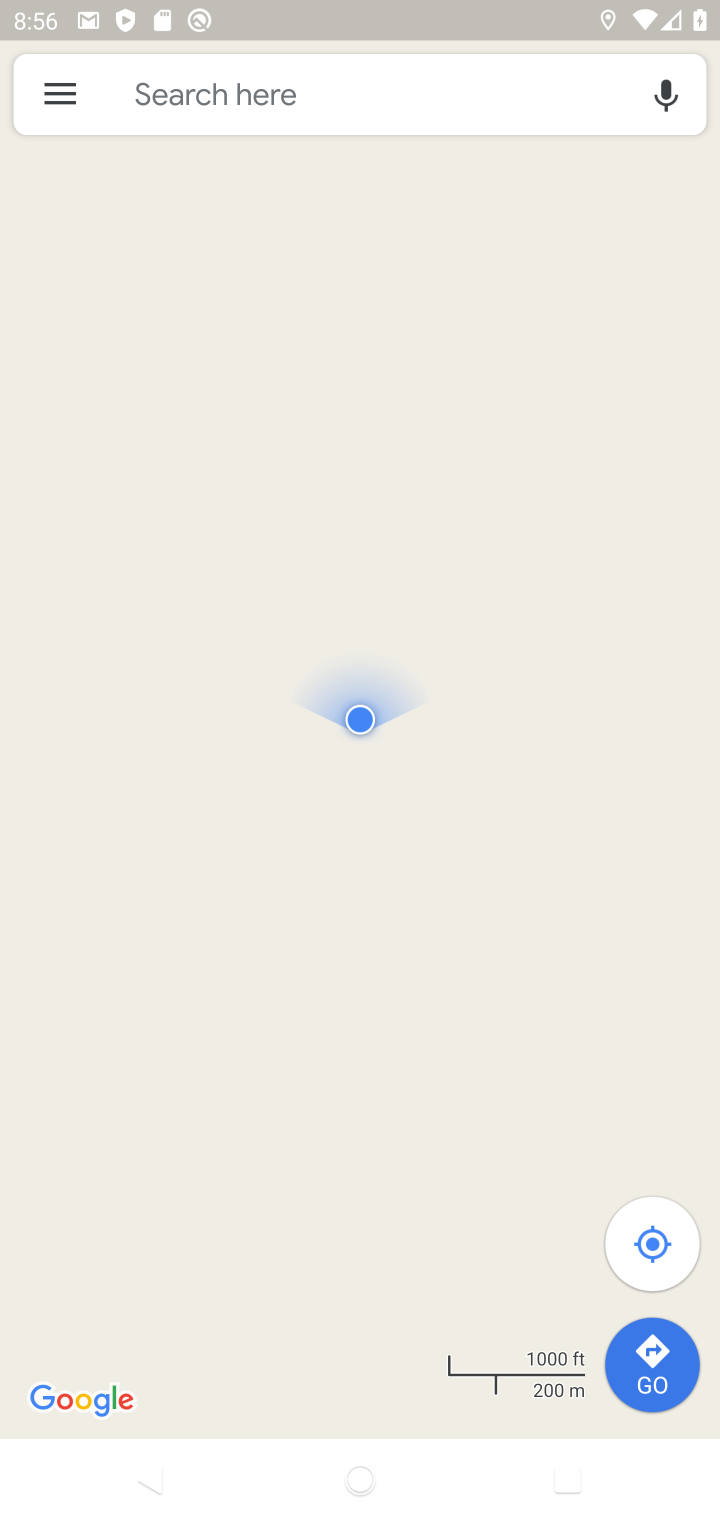
Step 29: click (140, 97)
Your task to perform on an android device: Search for vegetarian restaurants on Maps Image 30: 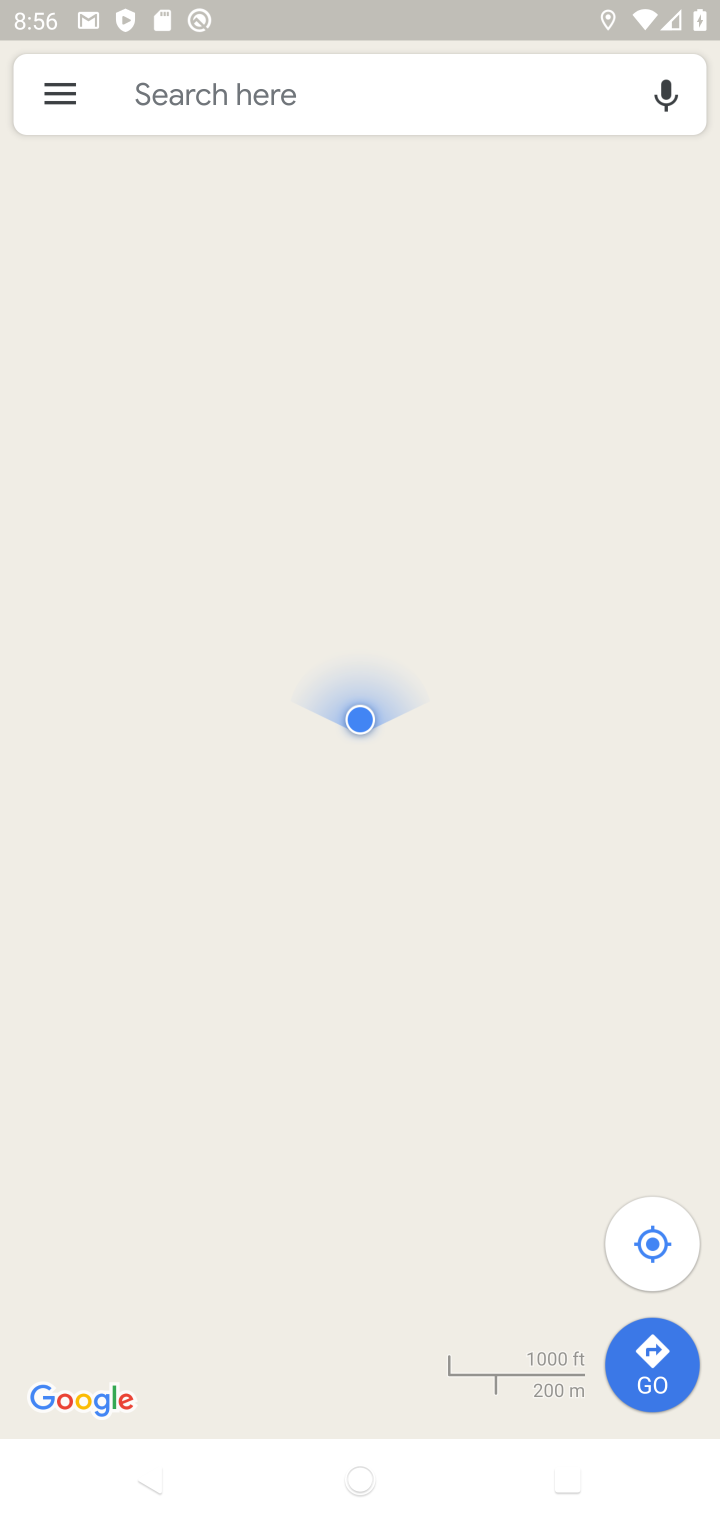
Step 30: click (140, 97)
Your task to perform on an android device: Search for vegetarian restaurants on Maps Image 31: 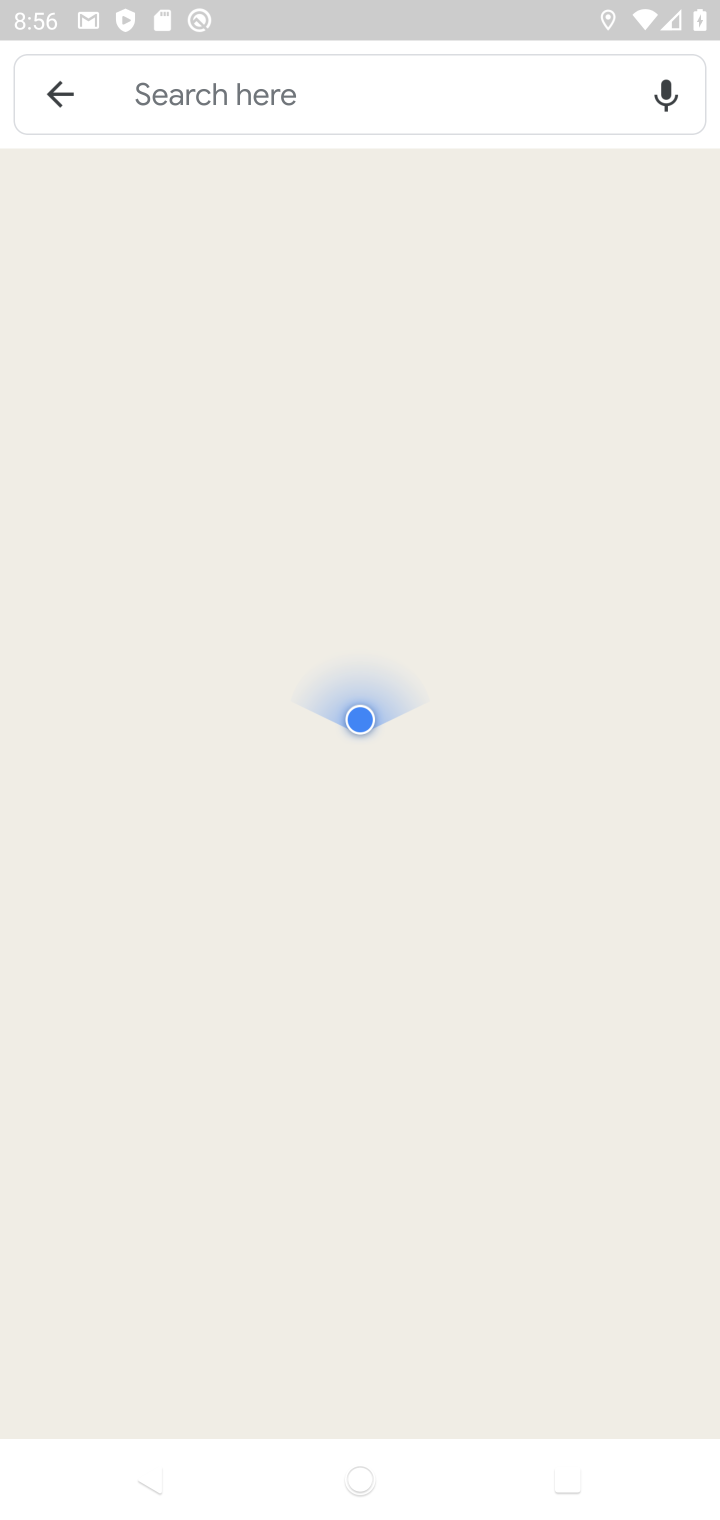
Step 31: click (136, 69)
Your task to perform on an android device: Search for vegetarian restaurants on Maps Image 32: 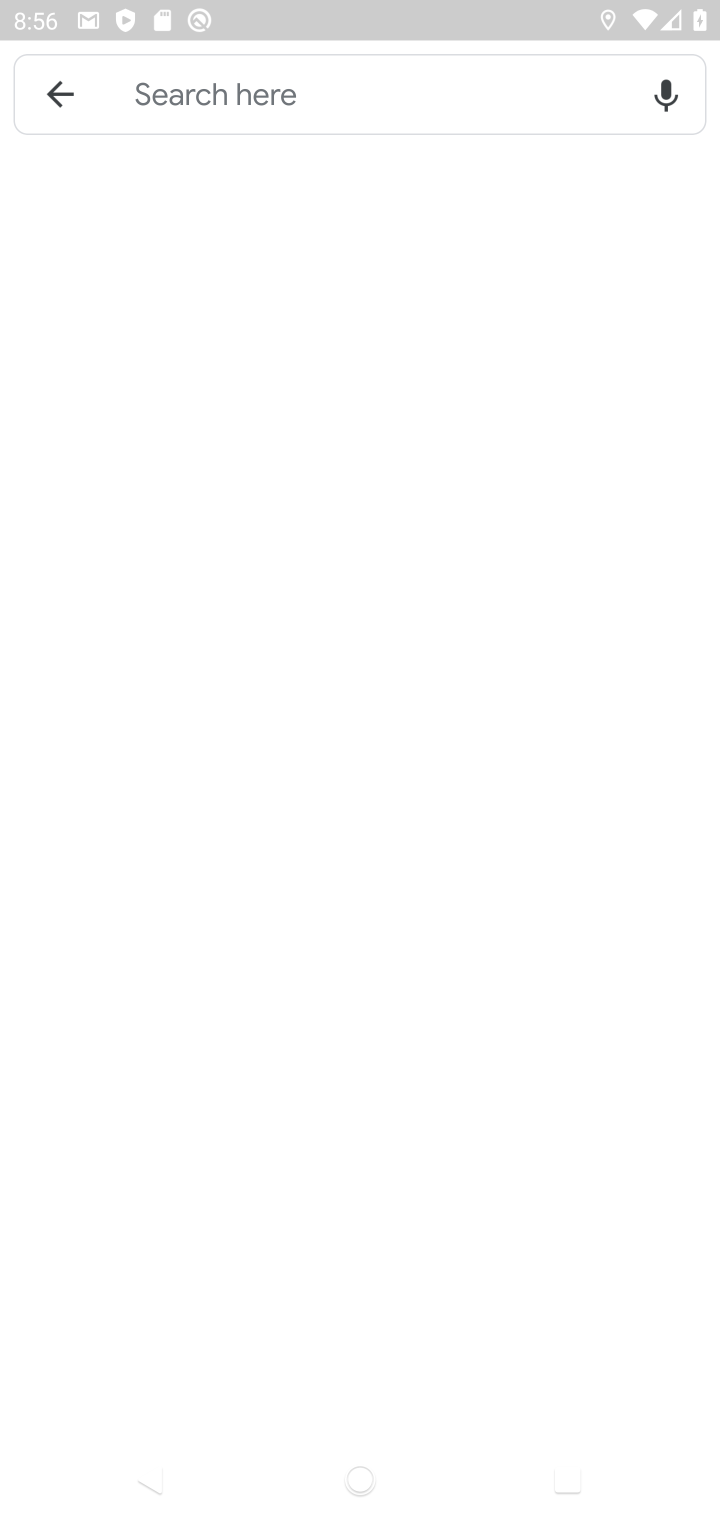
Step 32: click (136, 69)
Your task to perform on an android device: Search for vegetarian restaurants on Maps Image 33: 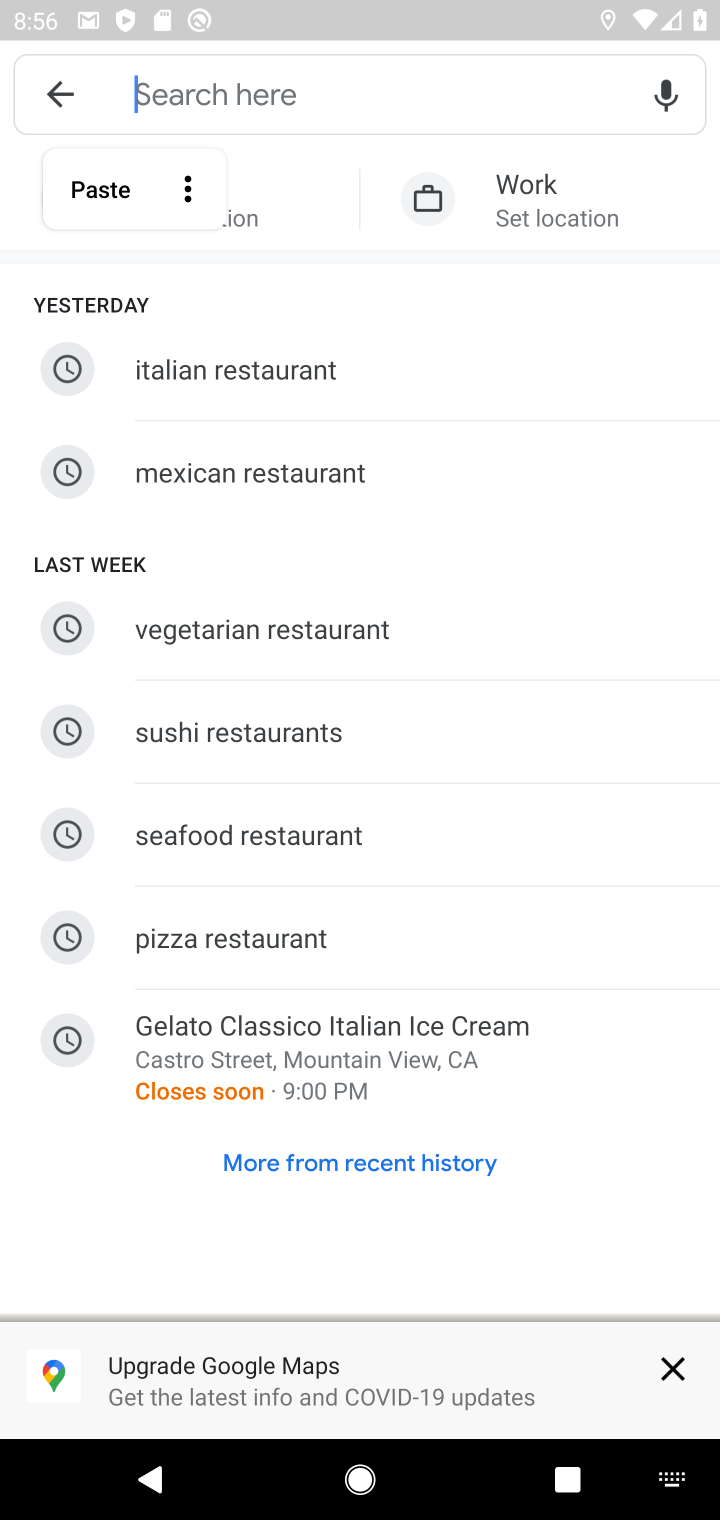
Step 33: type "vegetarian restaurants"
Your task to perform on an android device: Search for vegetarian restaurants on Maps Image 34: 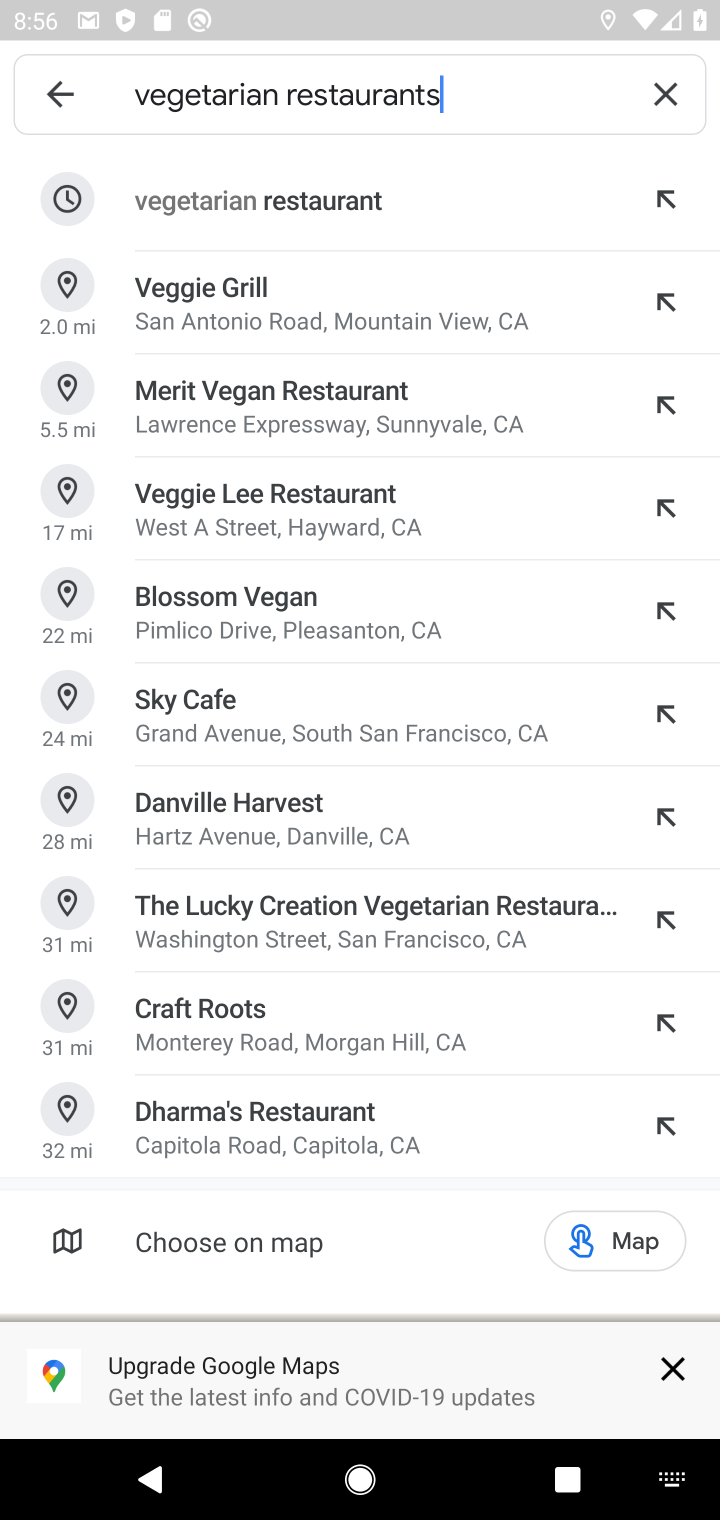
Step 34: click (174, 223)
Your task to perform on an android device: Search for vegetarian restaurants on Maps Image 35: 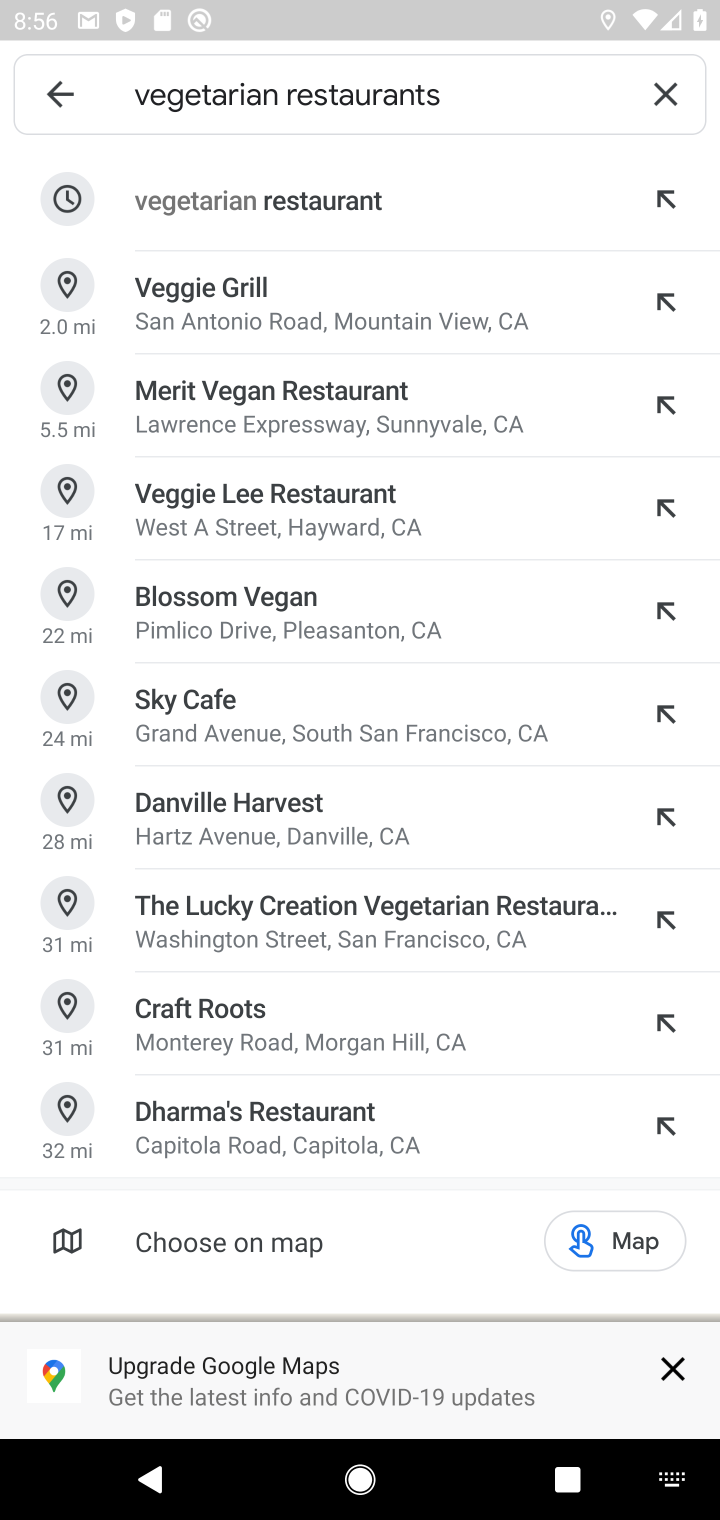
Step 35: click (176, 223)
Your task to perform on an android device: Search for vegetarian restaurants on Maps Image 36: 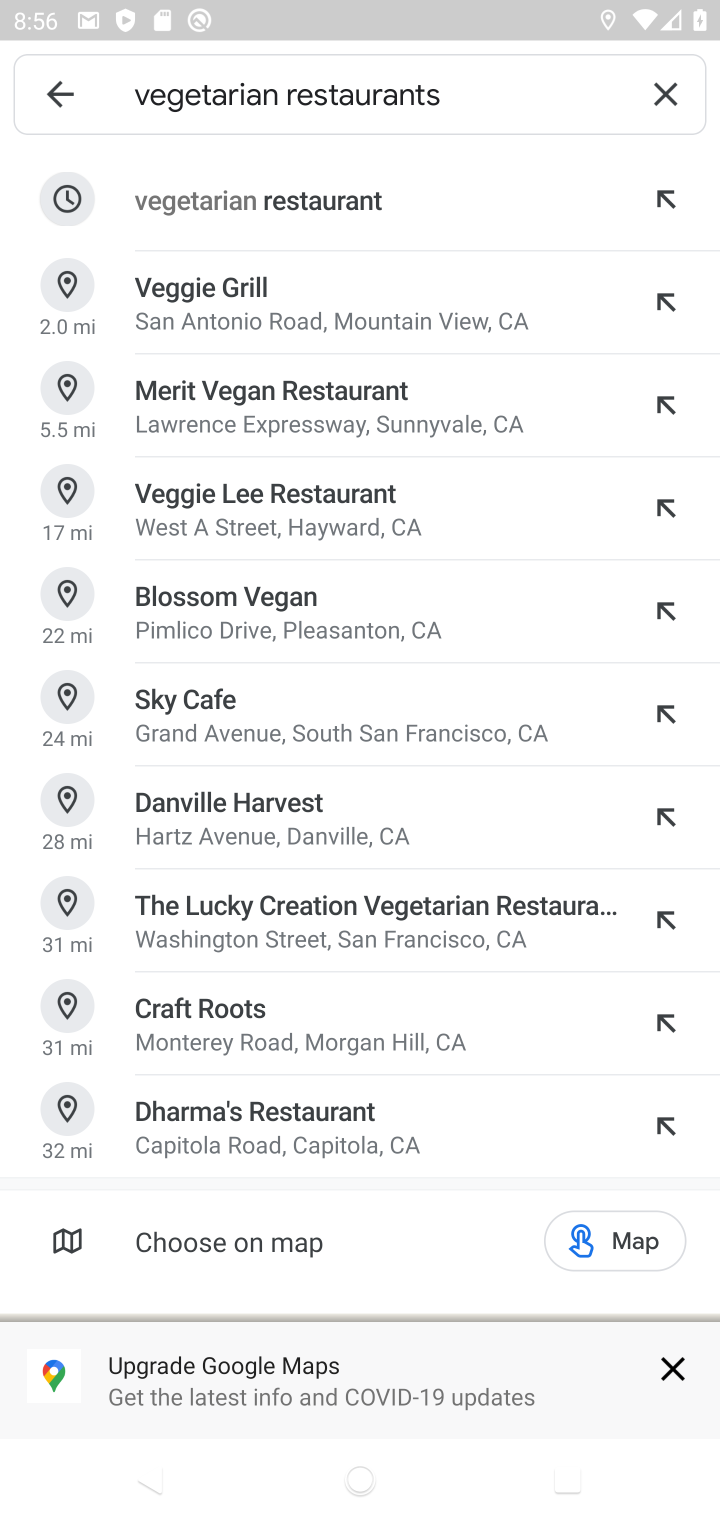
Step 36: click (228, 223)
Your task to perform on an android device: Search for vegetarian restaurants on Maps Image 37: 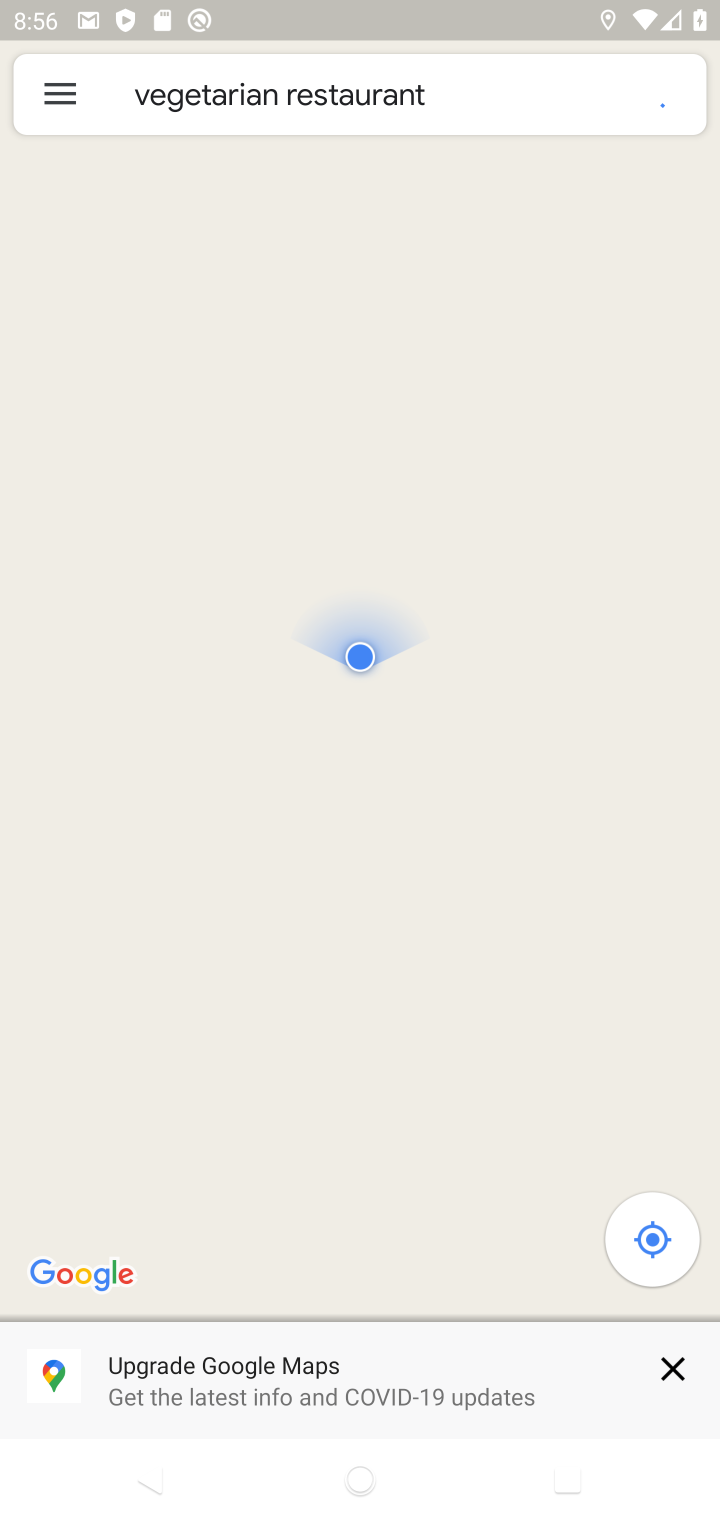
Step 37: click (236, 223)
Your task to perform on an android device: Search for vegetarian restaurants on Maps Image 38: 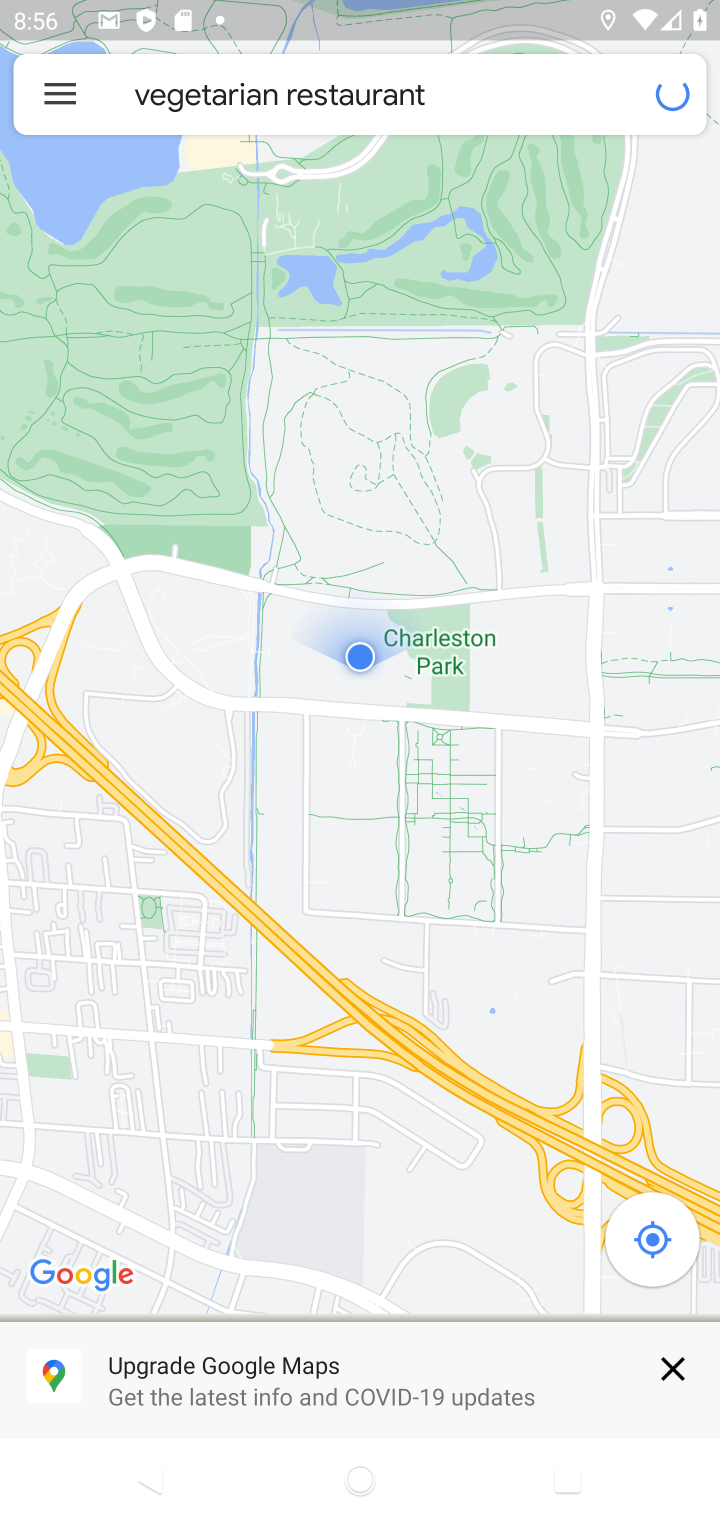
Step 38: task complete